Your task to perform on an android device: Search for hotels in Denver Image 0: 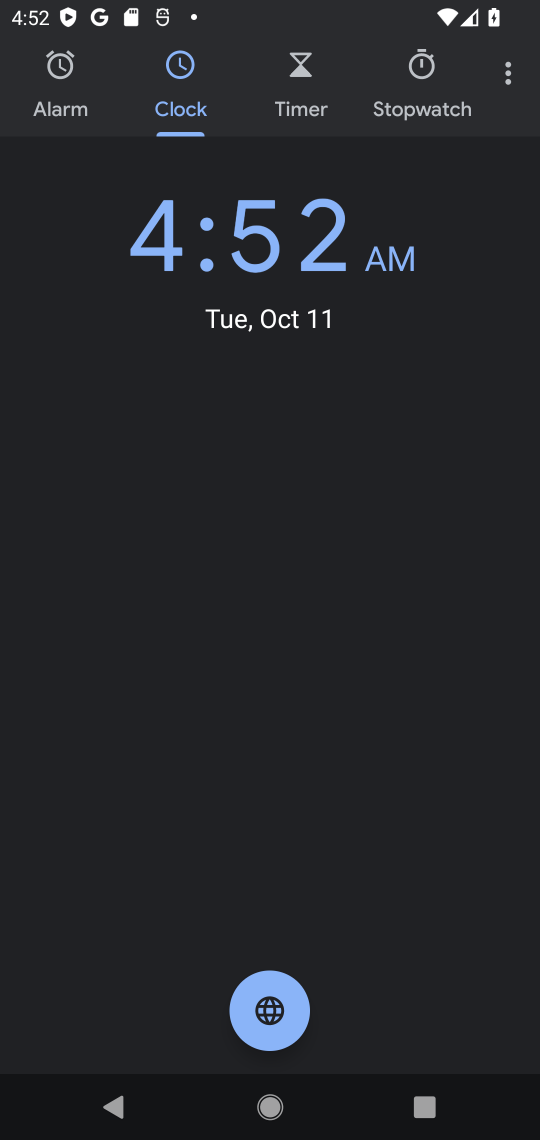
Step 0: press back button
Your task to perform on an android device: Search for hotels in Denver Image 1: 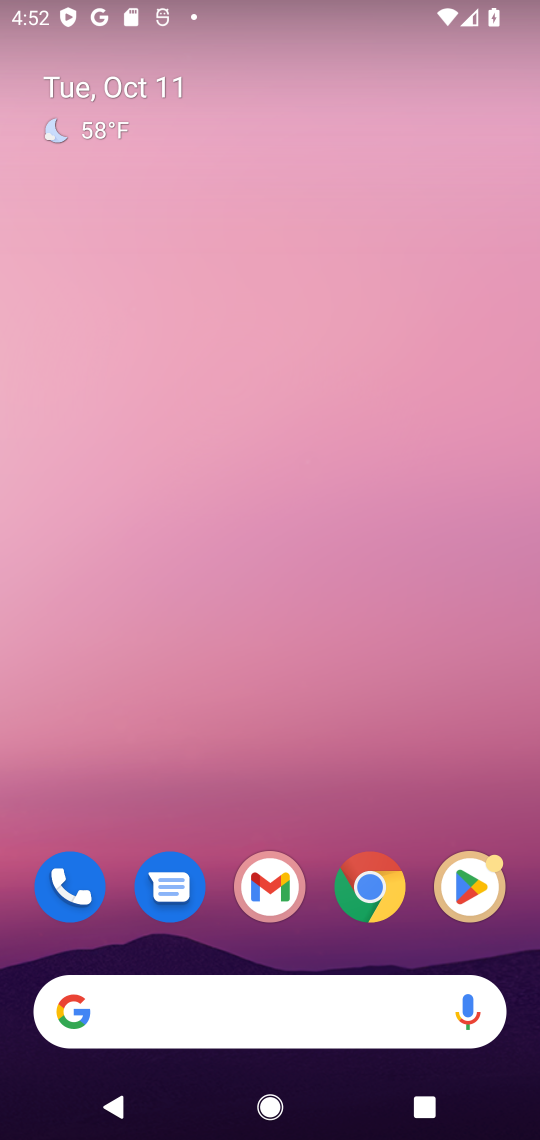
Step 1: click (284, 1006)
Your task to perform on an android device: Search for hotels in Denver Image 2: 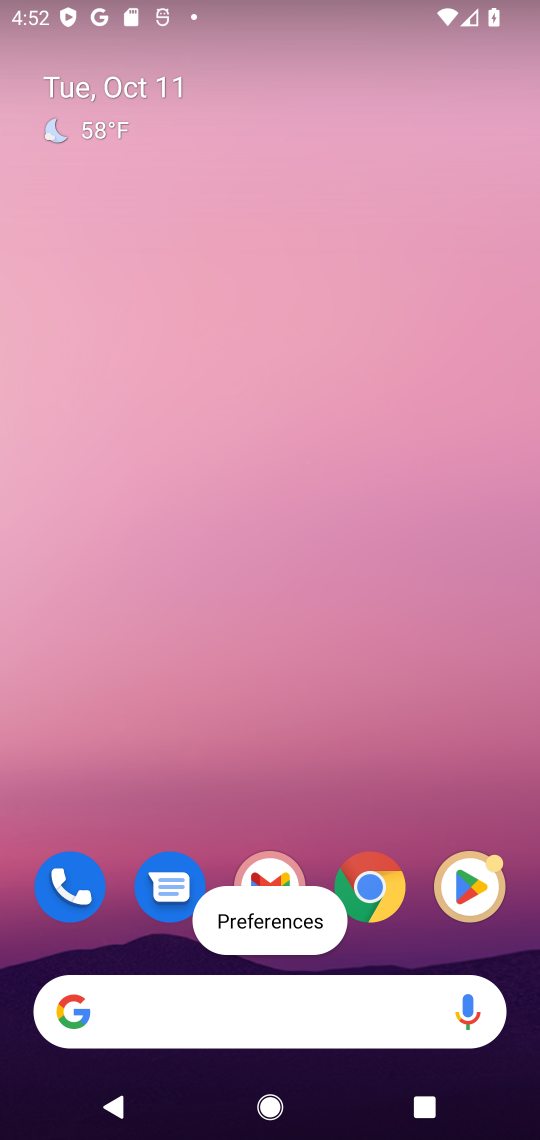
Step 2: type "hotels in Denver"
Your task to perform on an android device: Search for hotels in Denver Image 3: 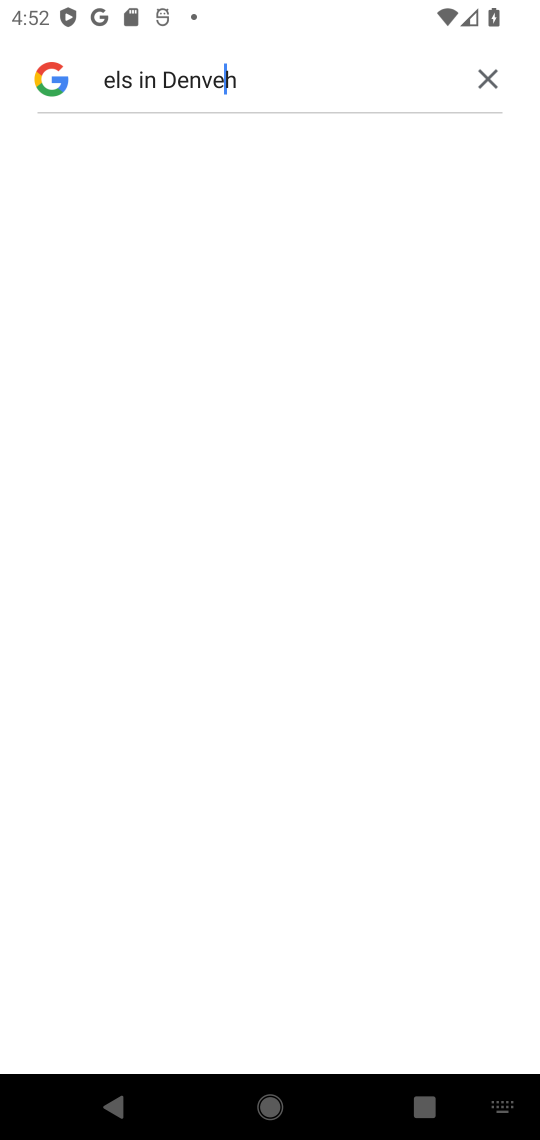
Step 3: type ""
Your task to perform on an android device: Search for hotels in Denver Image 4: 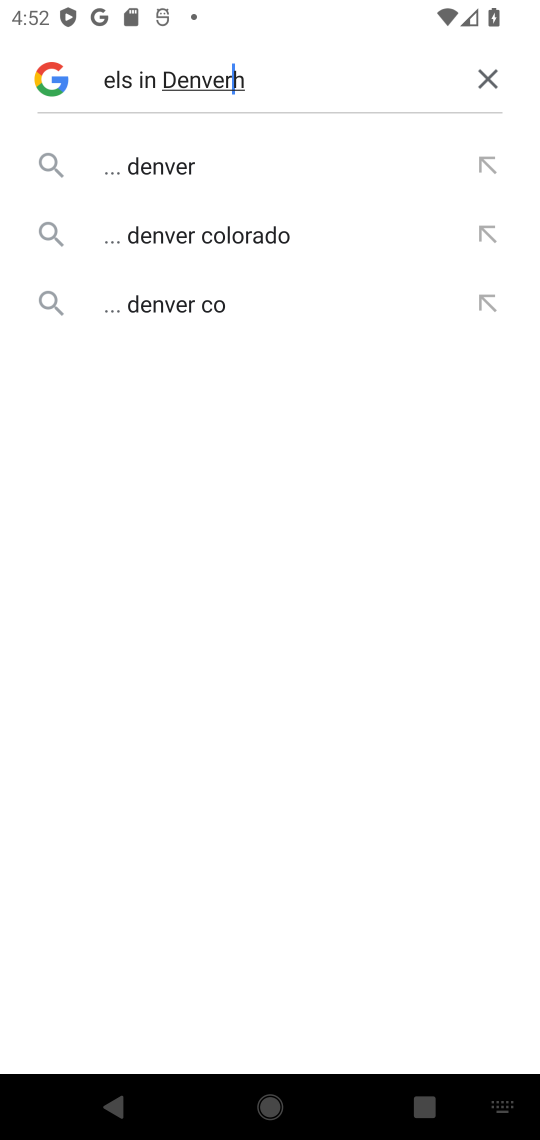
Step 4: click (491, 80)
Your task to perform on an android device: Search for hotels in Denver Image 5: 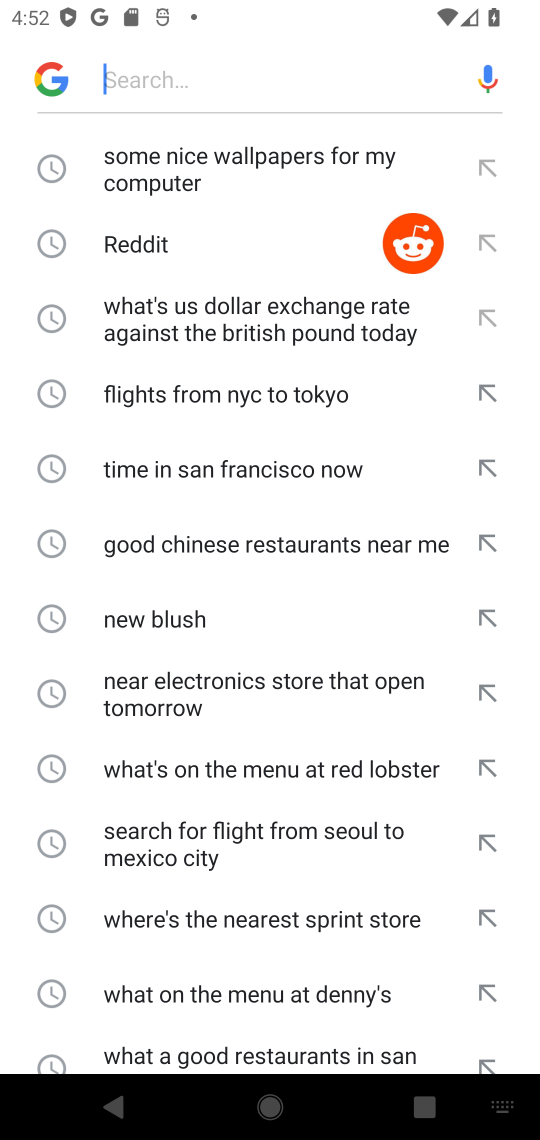
Step 5: type "hotels in Denver"
Your task to perform on an android device: Search for hotels in Denver Image 6: 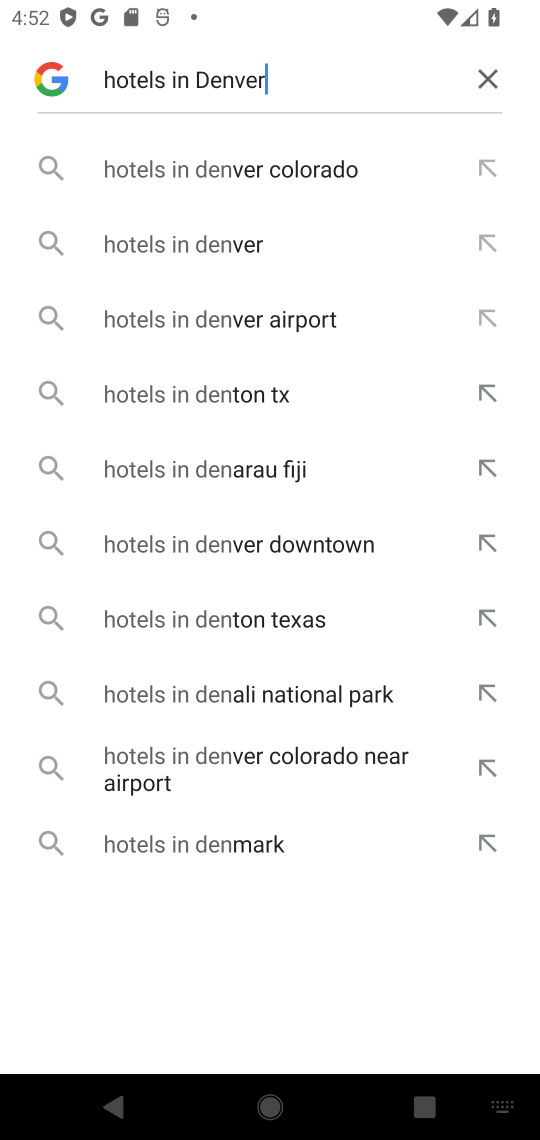
Step 6: type ""
Your task to perform on an android device: Search for hotels in Denver Image 7: 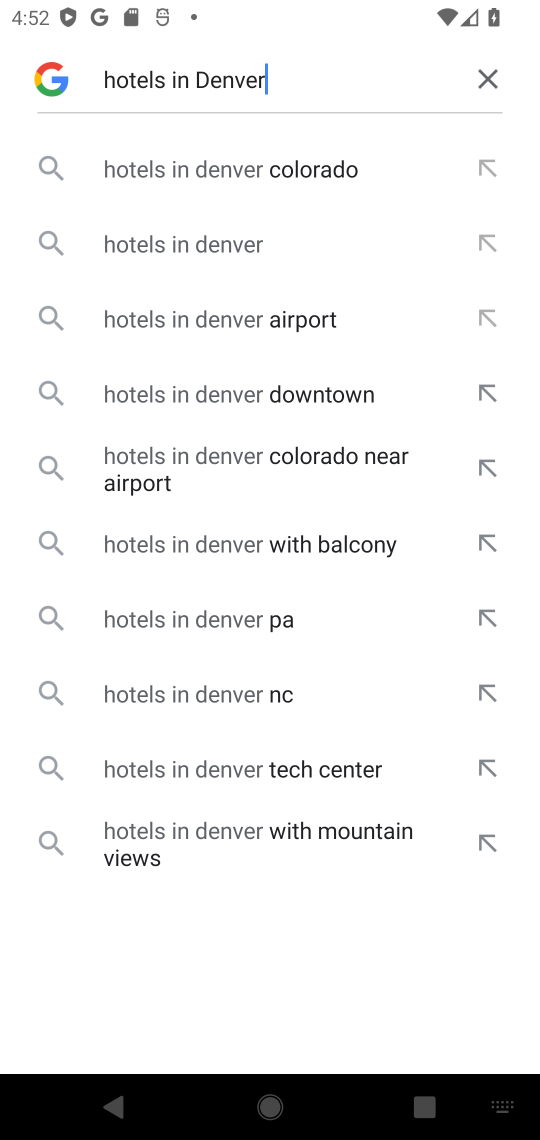
Step 7: type ""
Your task to perform on an android device: Search for hotels in Denver Image 8: 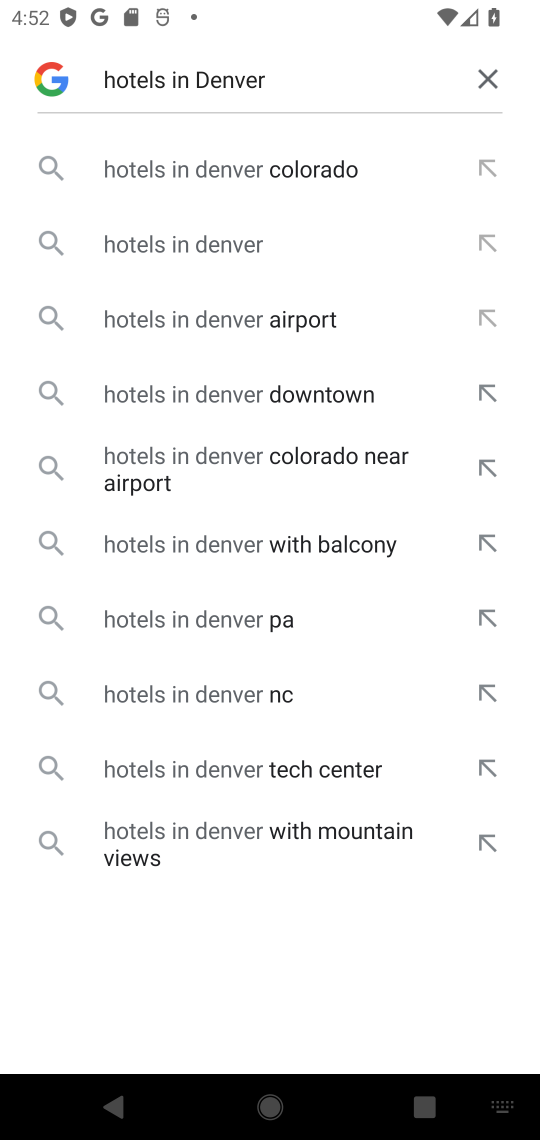
Step 8: press enter
Your task to perform on an android device: Search for hotels in Denver Image 9: 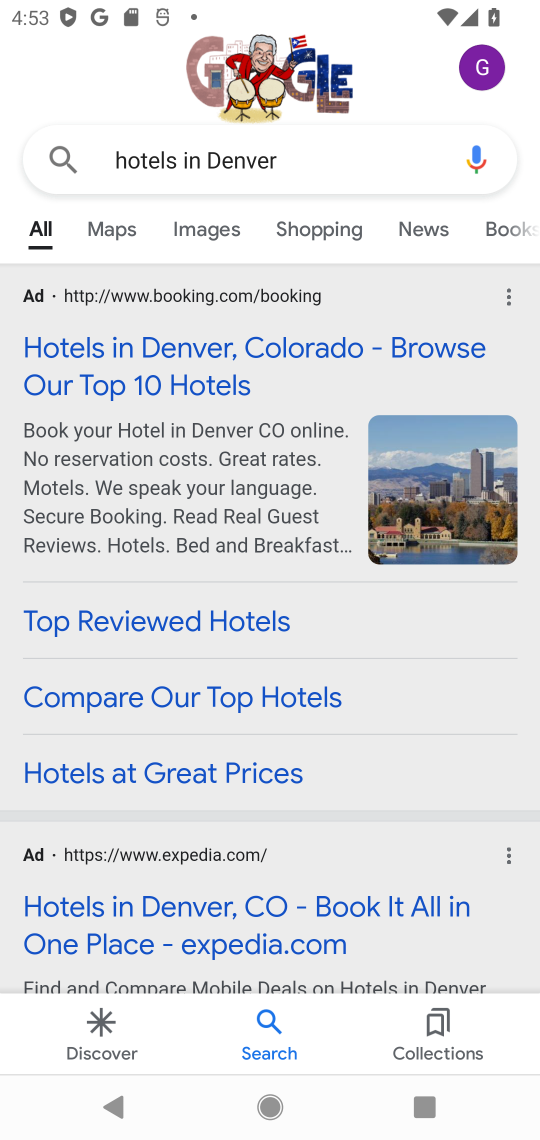
Step 9: drag from (407, 696) to (326, 364)
Your task to perform on an android device: Search for hotels in Denver Image 10: 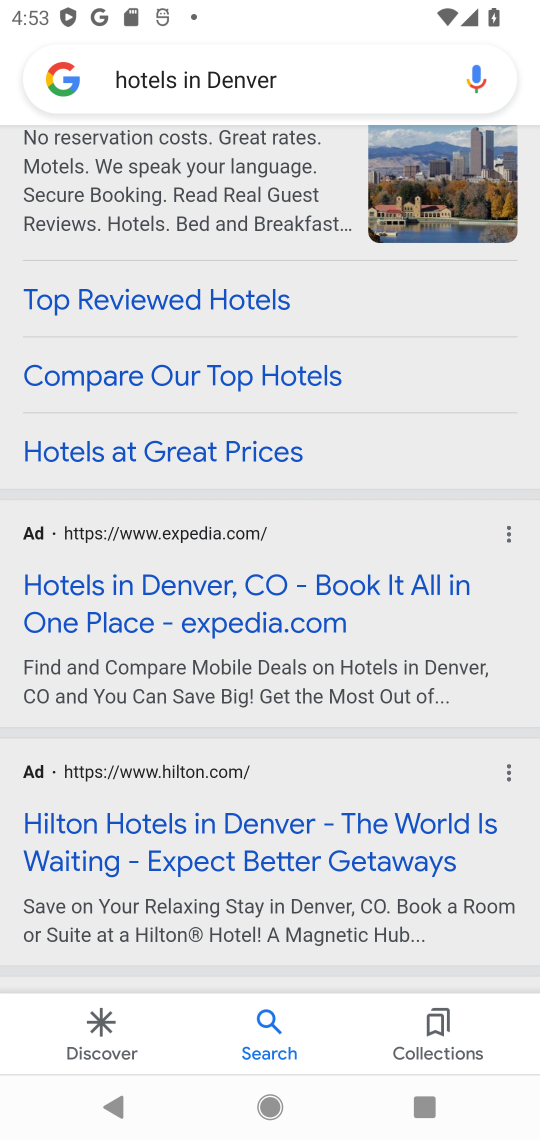
Step 10: drag from (289, 760) to (344, 238)
Your task to perform on an android device: Search for hotels in Denver Image 11: 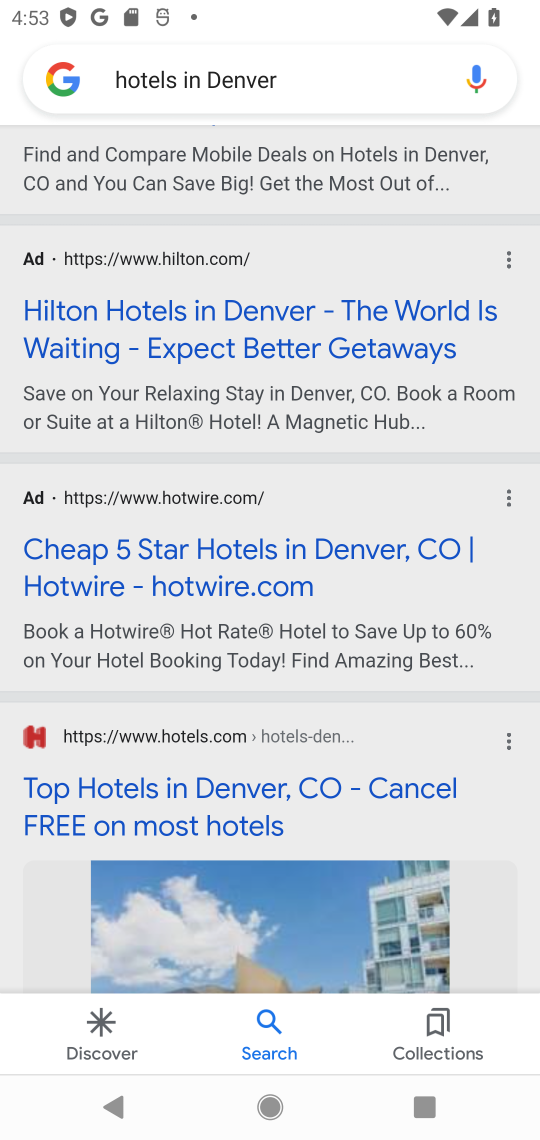
Step 11: click (188, 780)
Your task to perform on an android device: Search for hotels in Denver Image 12: 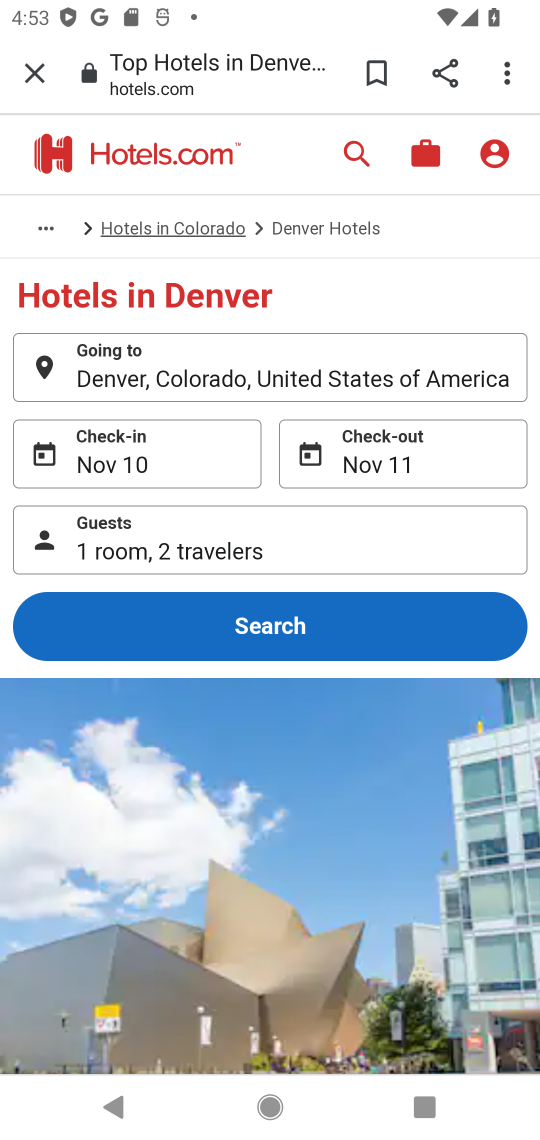
Step 12: drag from (514, 650) to (495, 273)
Your task to perform on an android device: Search for hotels in Denver Image 13: 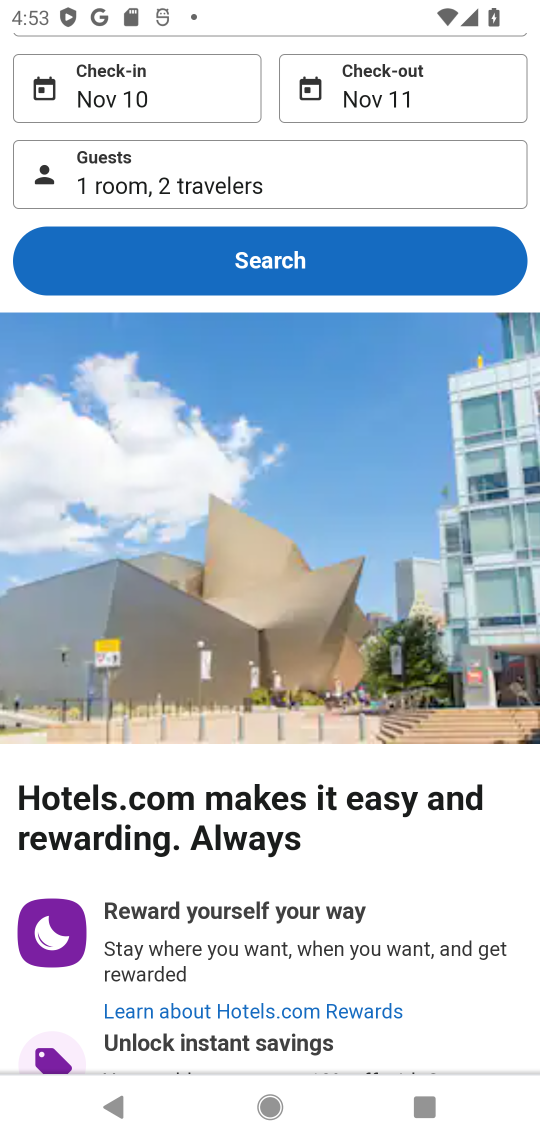
Step 13: drag from (454, 871) to (512, 399)
Your task to perform on an android device: Search for hotels in Denver Image 14: 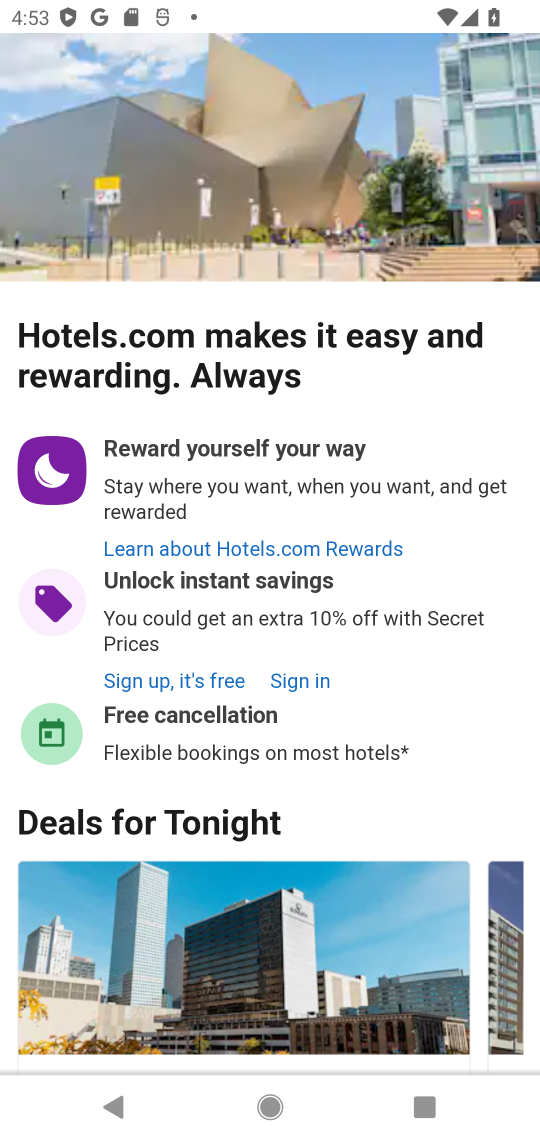
Step 14: drag from (444, 784) to (447, 123)
Your task to perform on an android device: Search for hotels in Denver Image 15: 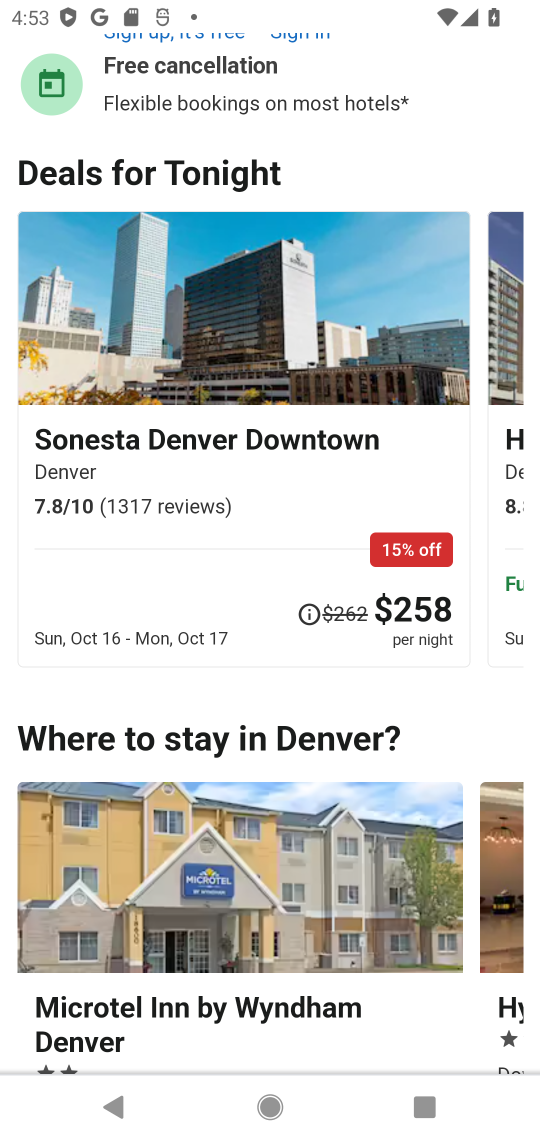
Step 15: drag from (440, 752) to (439, 96)
Your task to perform on an android device: Search for hotels in Denver Image 16: 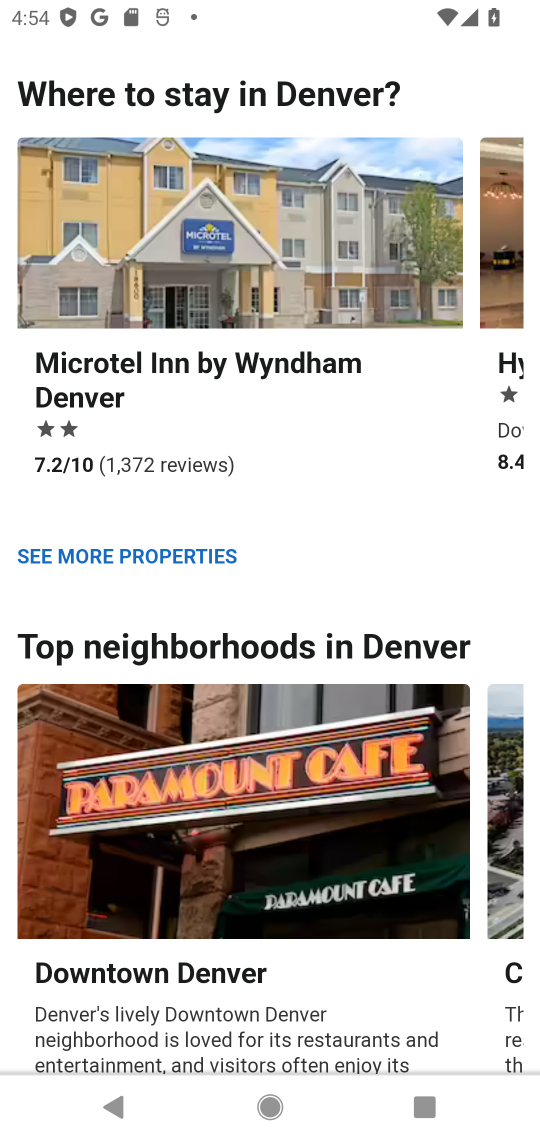
Step 16: drag from (473, 622) to (458, 104)
Your task to perform on an android device: Search for hotels in Denver Image 17: 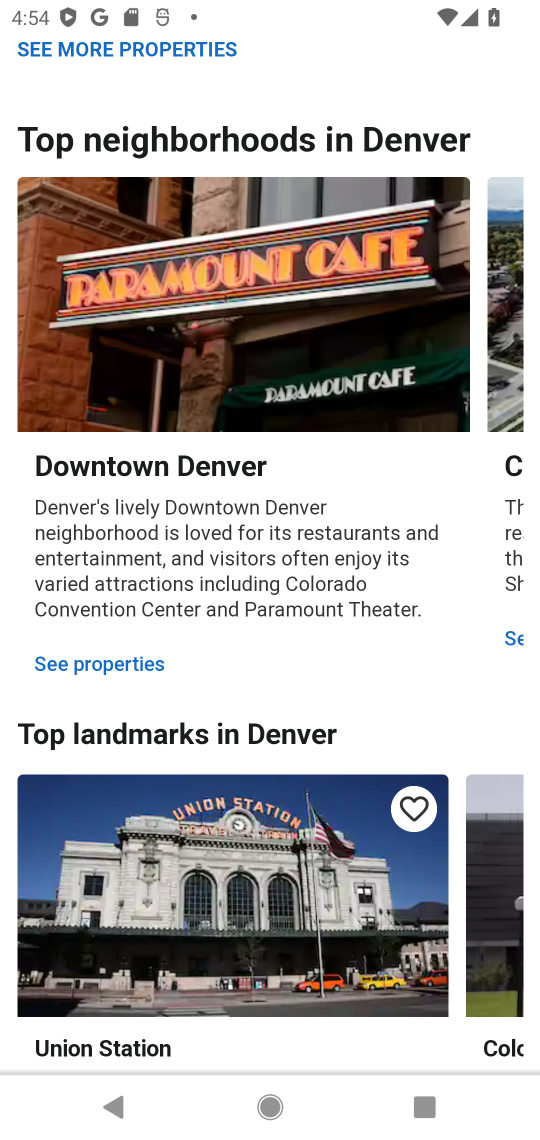
Step 17: drag from (322, 679) to (322, 588)
Your task to perform on an android device: Search for hotels in Denver Image 18: 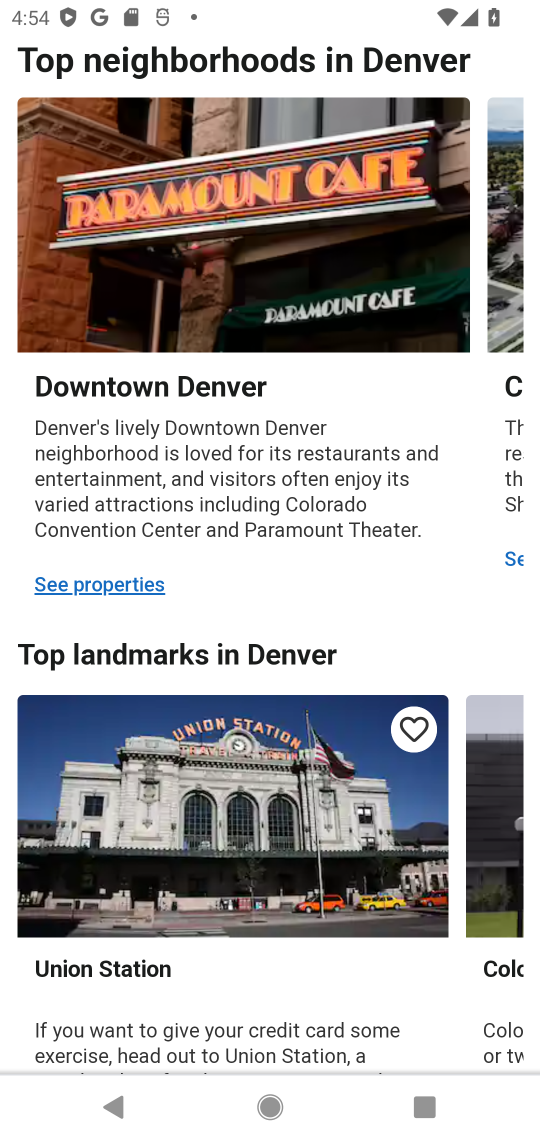
Step 18: click (221, 648)
Your task to perform on an android device: Search for hotels in Denver Image 19: 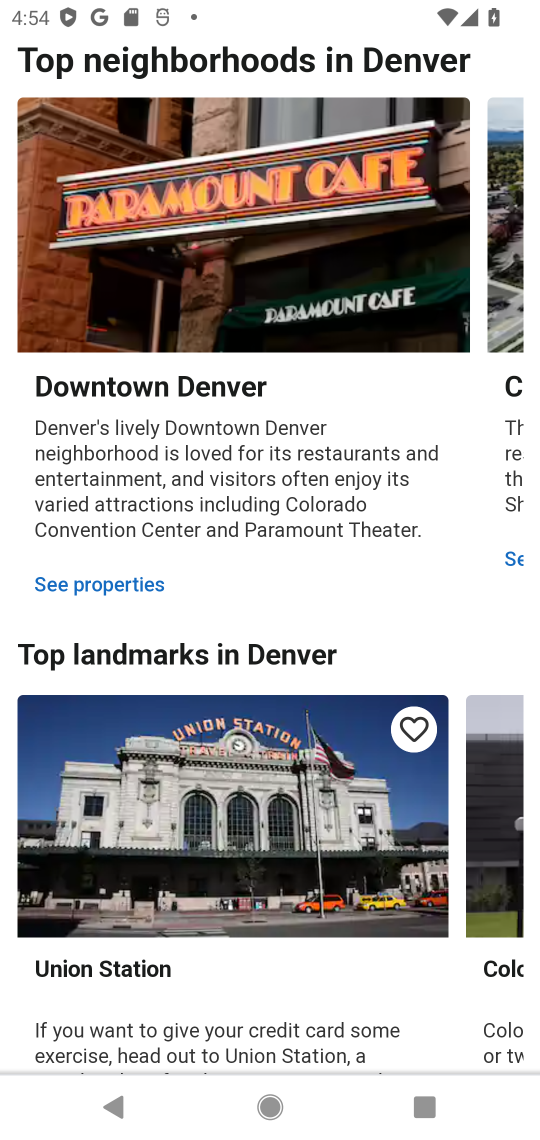
Step 19: drag from (389, 626) to (406, 184)
Your task to perform on an android device: Search for hotels in Denver Image 20: 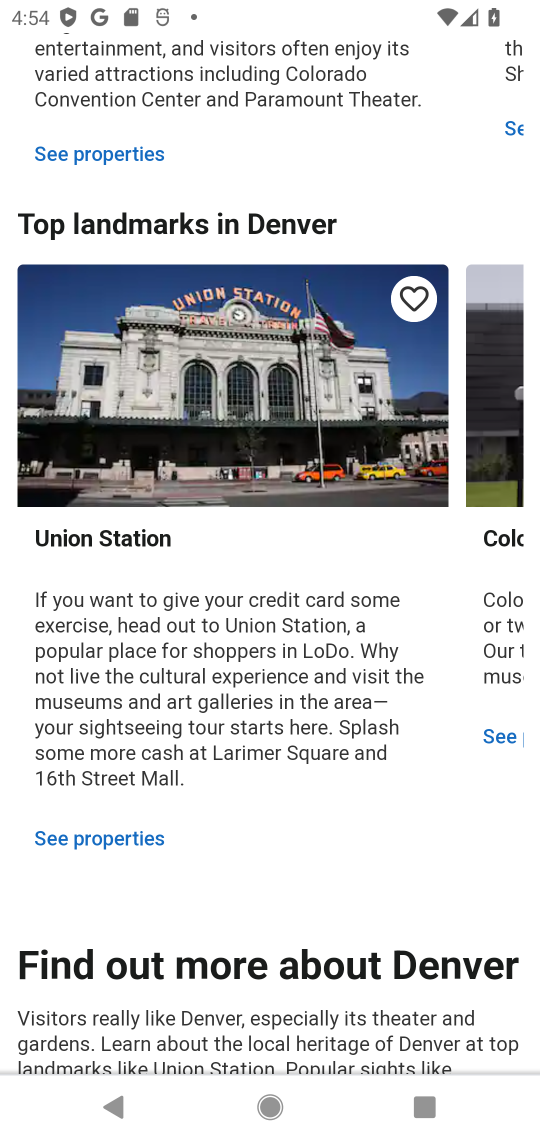
Step 20: drag from (428, 779) to (463, 243)
Your task to perform on an android device: Search for hotels in Denver Image 21: 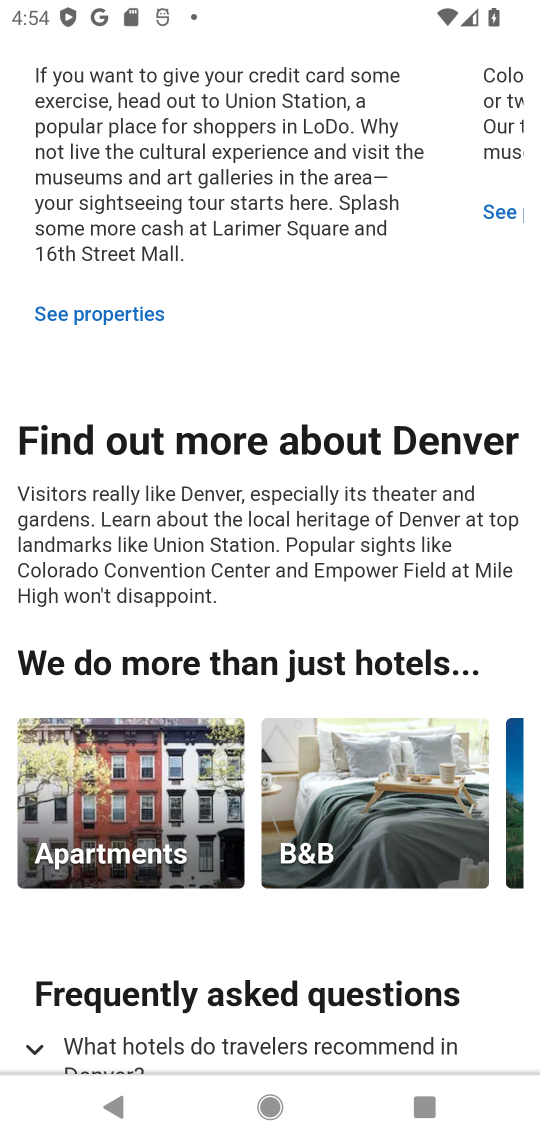
Step 21: click (436, 251)
Your task to perform on an android device: Search for hotels in Denver Image 22: 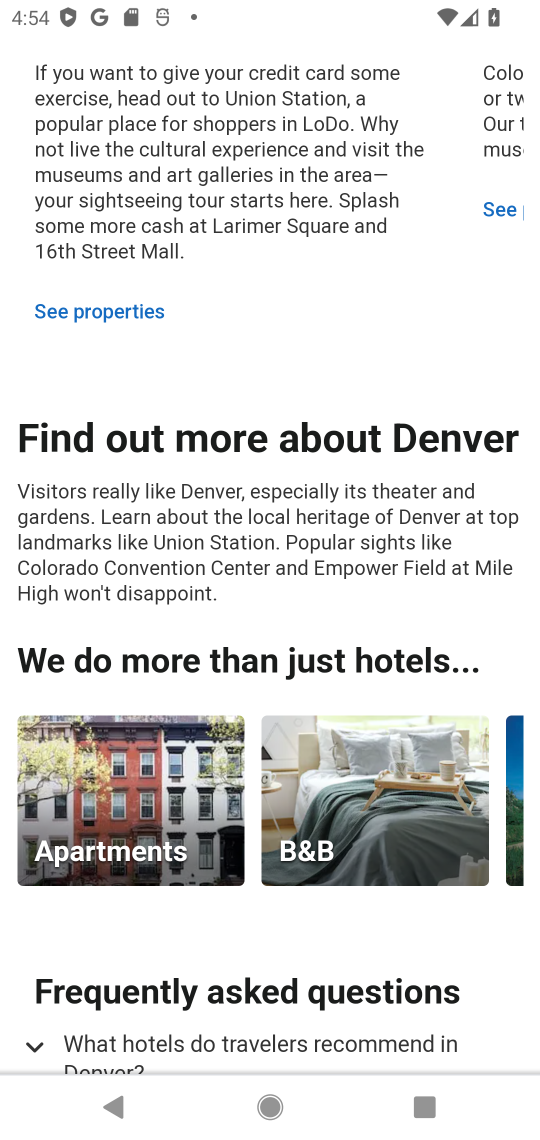
Step 22: click (447, 292)
Your task to perform on an android device: Search for hotels in Denver Image 23: 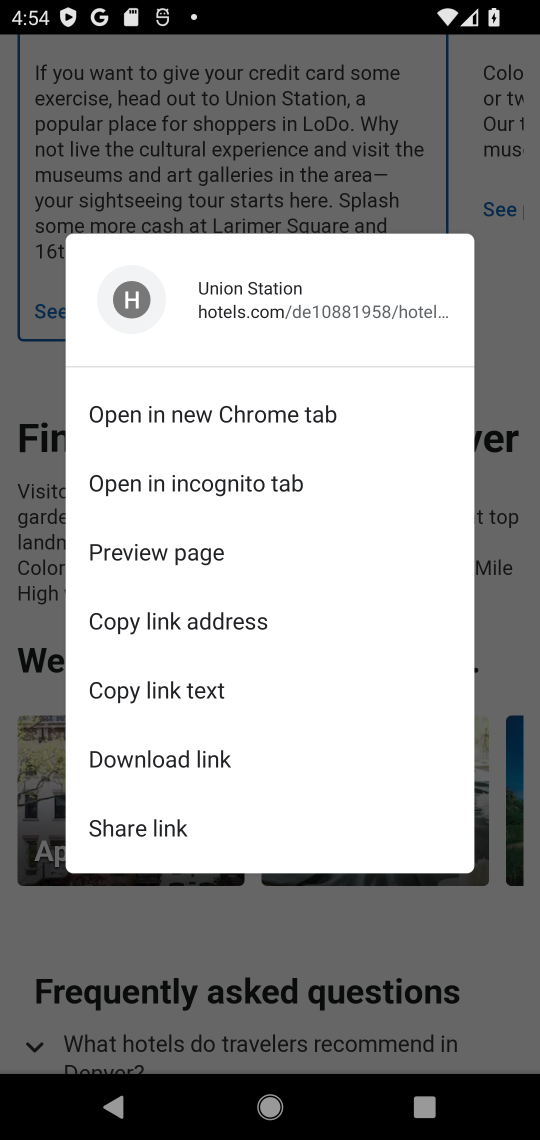
Step 23: click (516, 357)
Your task to perform on an android device: Search for hotels in Denver Image 24: 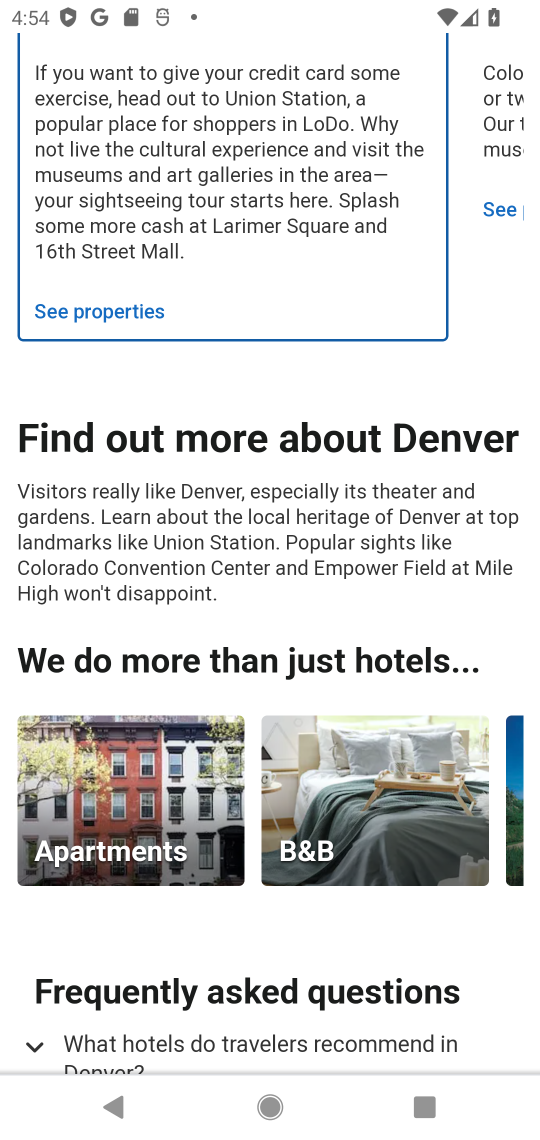
Step 24: click (455, 353)
Your task to perform on an android device: Search for hotels in Denver Image 25: 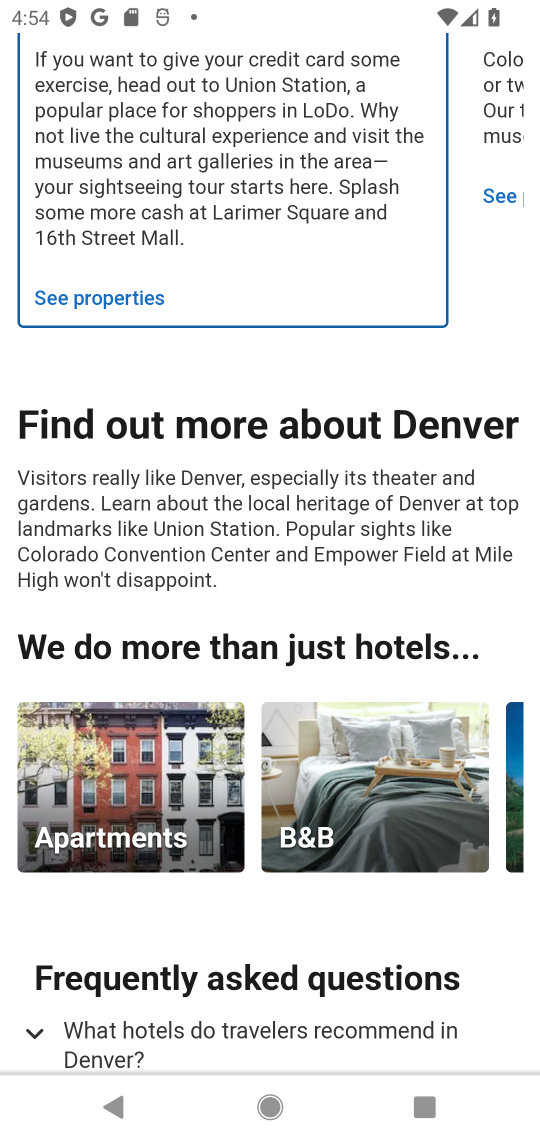
Step 25: drag from (453, 385) to (460, 98)
Your task to perform on an android device: Search for hotels in Denver Image 26: 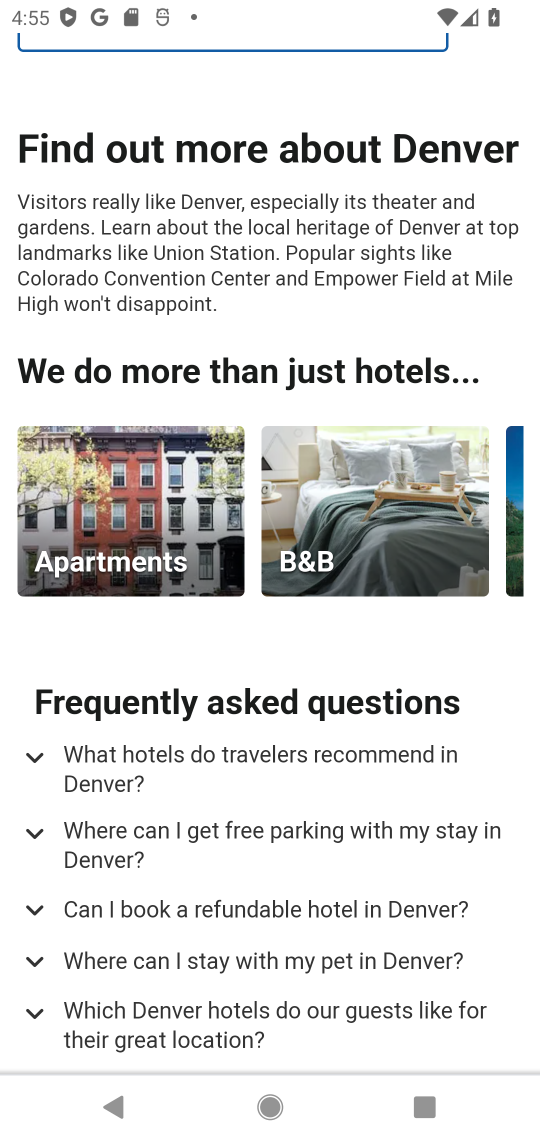
Step 26: click (33, 751)
Your task to perform on an android device: Search for hotels in Denver Image 27: 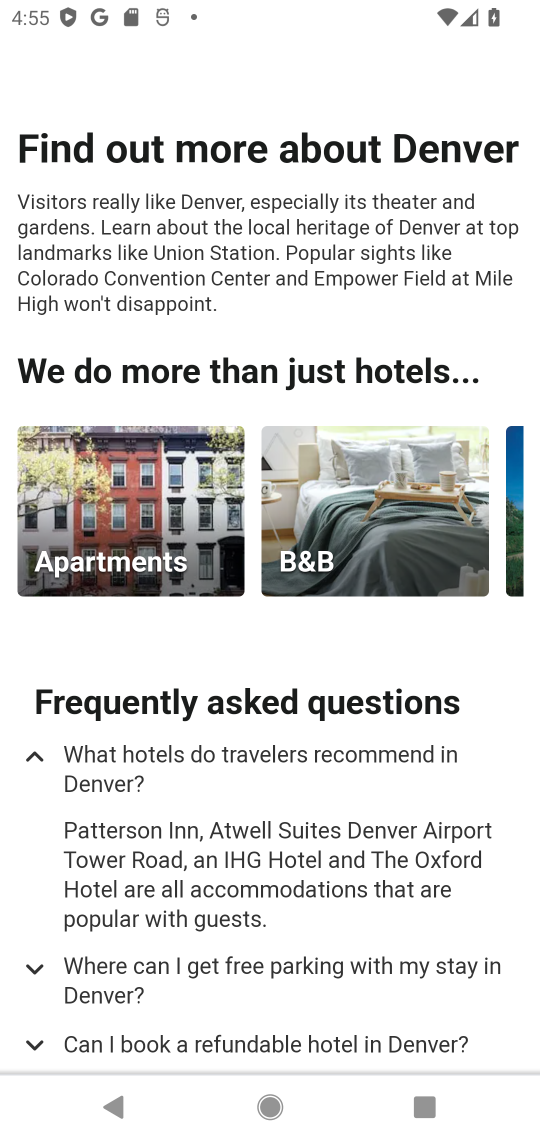
Step 27: click (30, 756)
Your task to perform on an android device: Search for hotels in Denver Image 28: 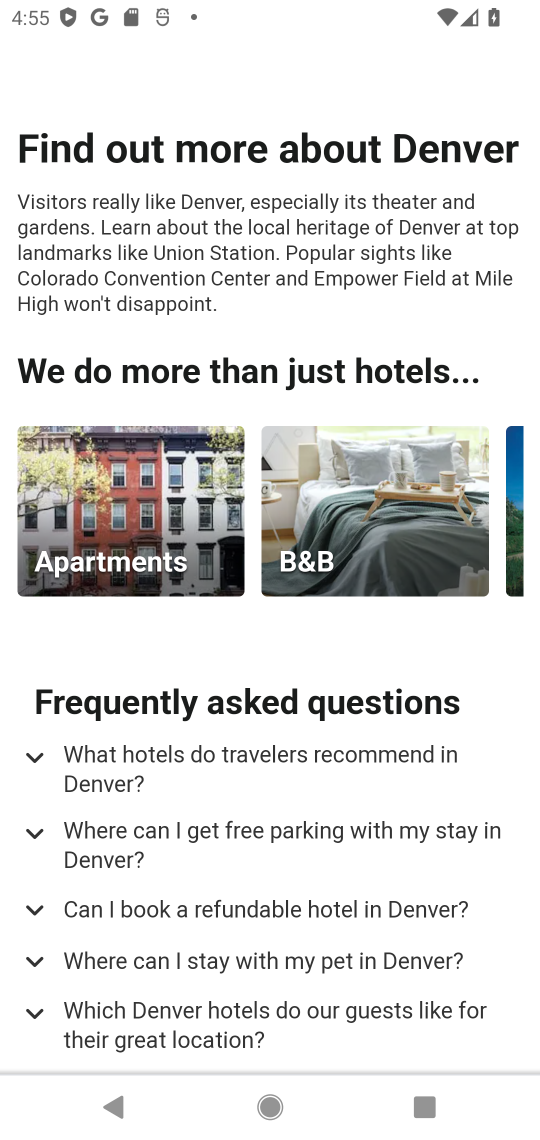
Step 28: click (30, 756)
Your task to perform on an android device: Search for hotels in Denver Image 29: 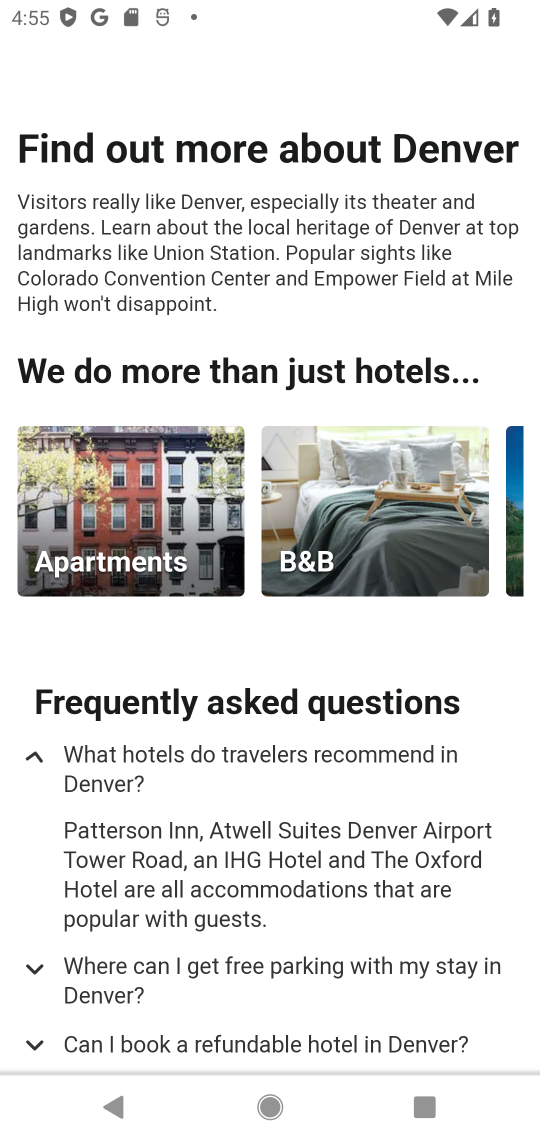
Step 29: click (30, 756)
Your task to perform on an android device: Search for hotels in Denver Image 30: 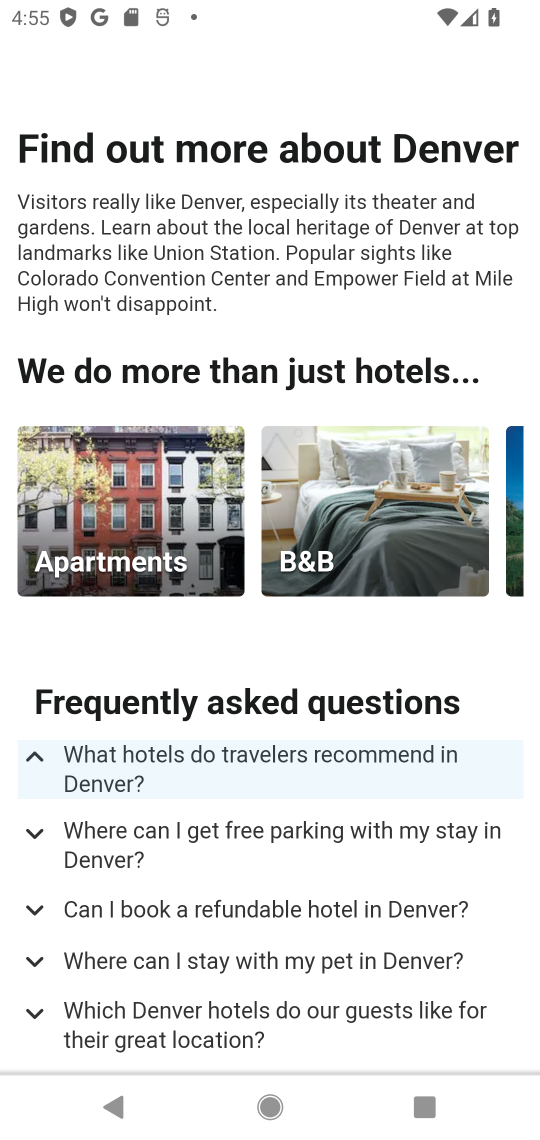
Step 30: click (30, 756)
Your task to perform on an android device: Search for hotels in Denver Image 31: 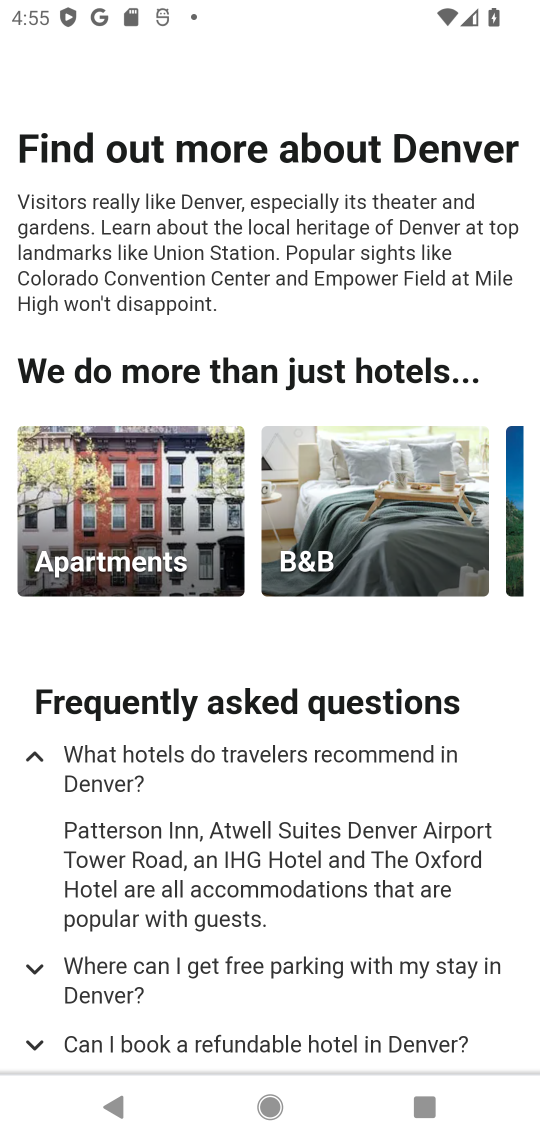
Step 31: click (30, 756)
Your task to perform on an android device: Search for hotels in Denver Image 32: 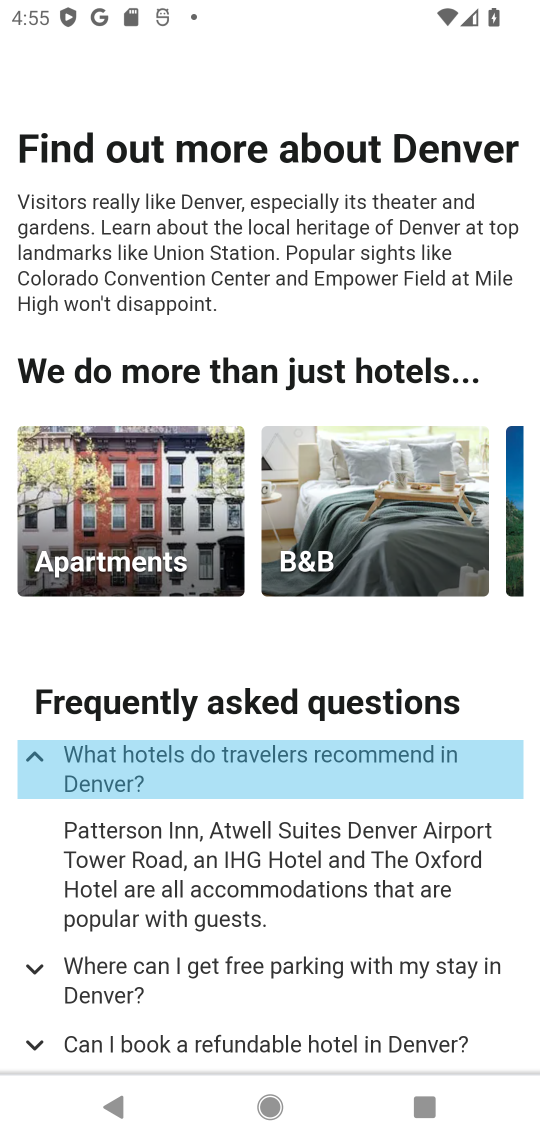
Step 32: click (30, 756)
Your task to perform on an android device: Search for hotels in Denver Image 33: 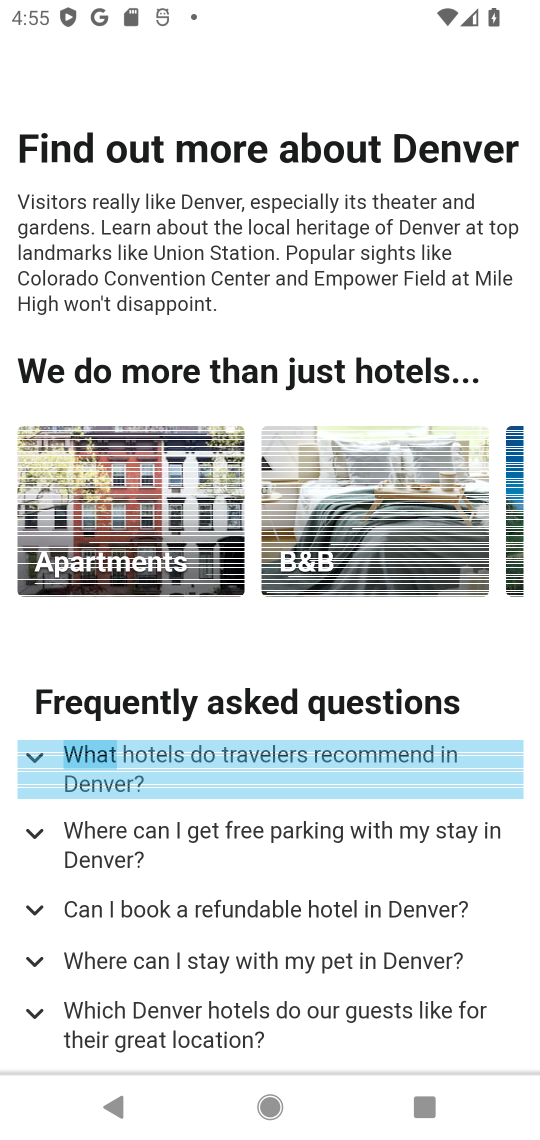
Step 33: click (30, 756)
Your task to perform on an android device: Search for hotels in Denver Image 34: 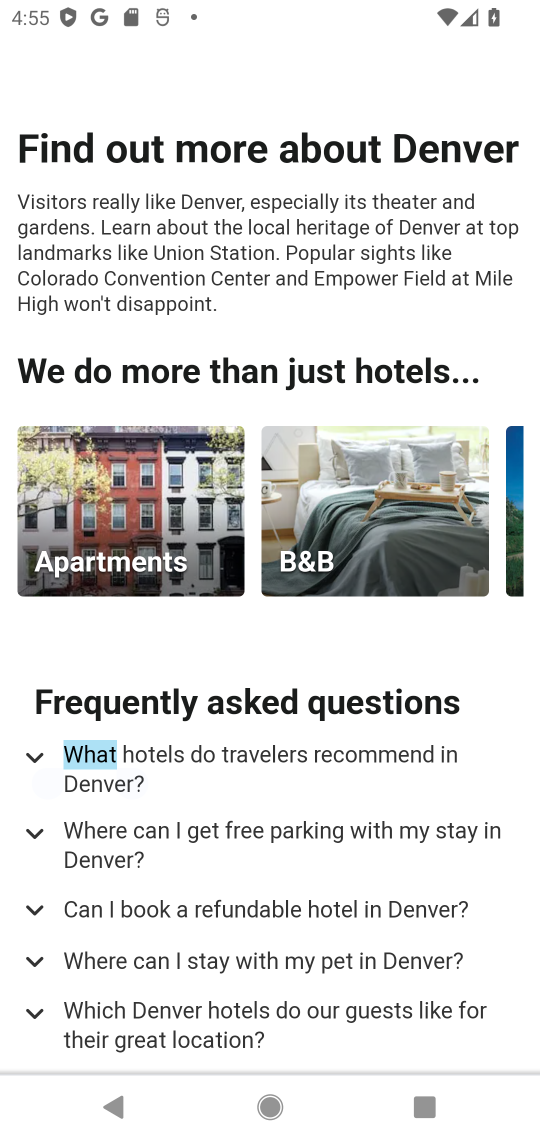
Step 34: click (28, 755)
Your task to perform on an android device: Search for hotels in Denver Image 35: 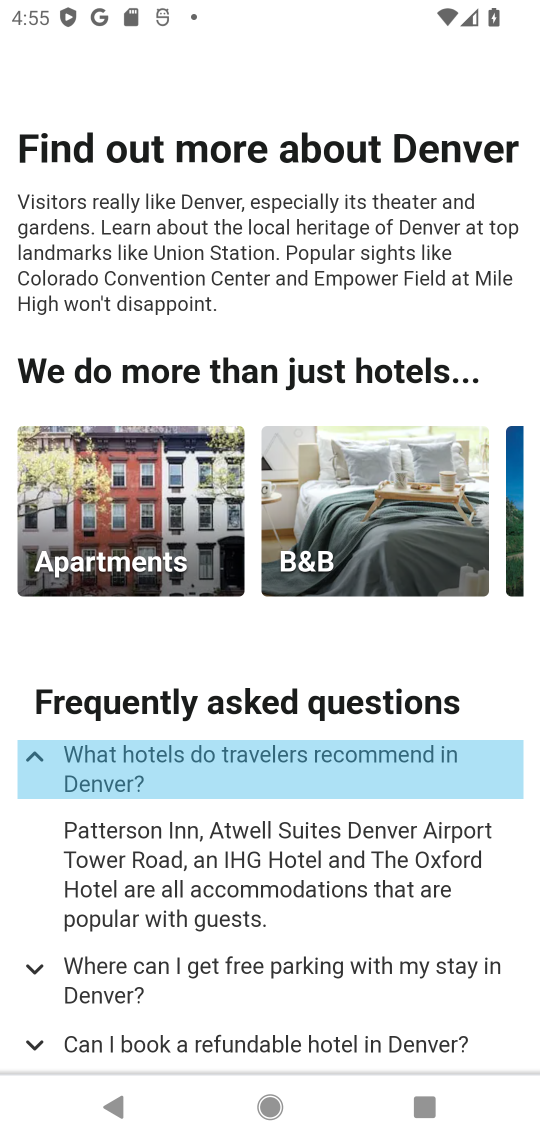
Step 35: click (28, 755)
Your task to perform on an android device: Search for hotels in Denver Image 36: 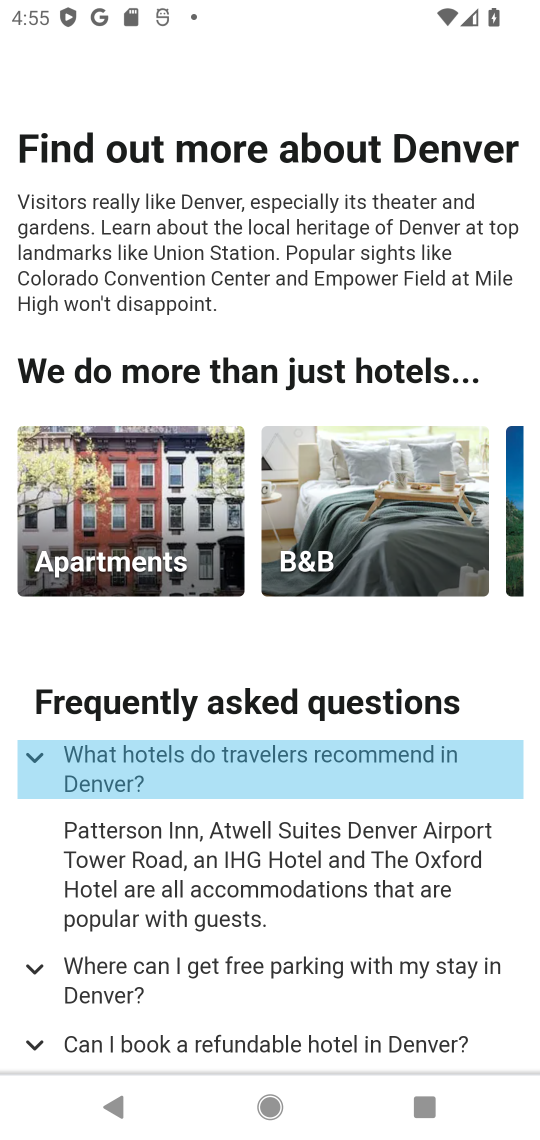
Step 36: click (28, 755)
Your task to perform on an android device: Search for hotels in Denver Image 37: 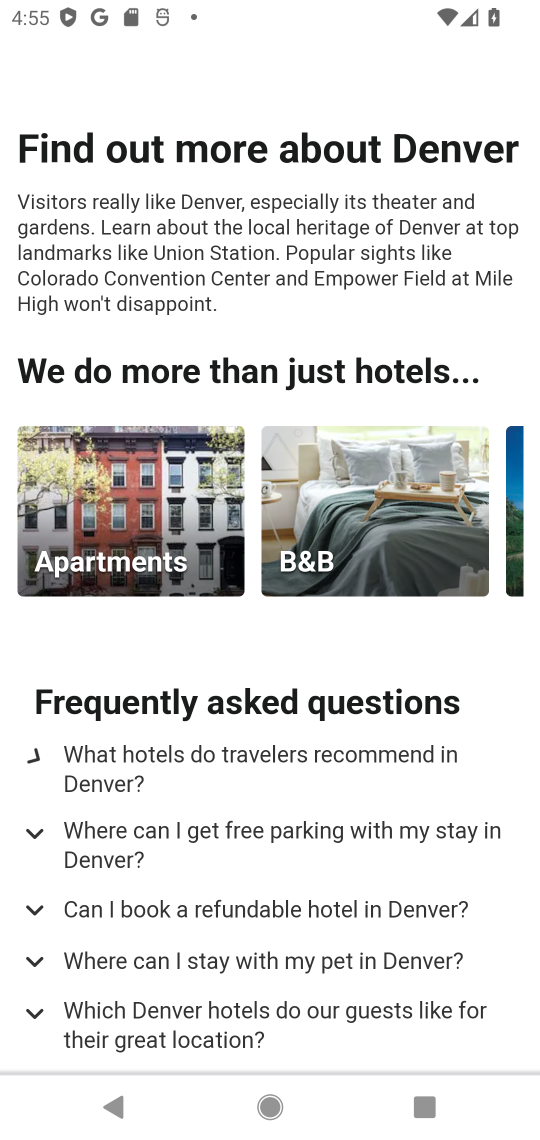
Step 37: click (28, 755)
Your task to perform on an android device: Search for hotels in Denver Image 38: 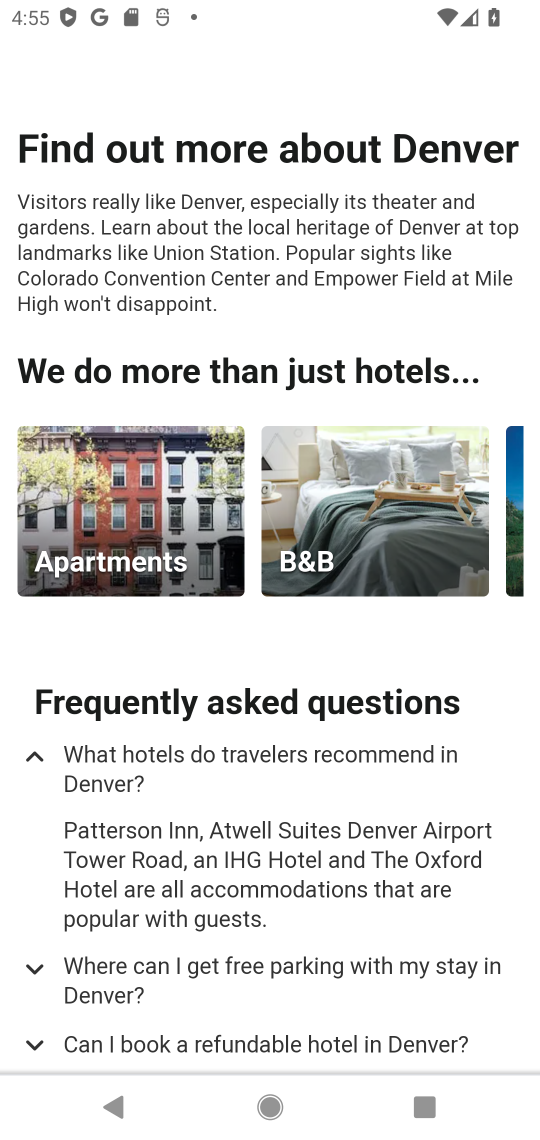
Step 38: click (28, 755)
Your task to perform on an android device: Search for hotels in Denver Image 39: 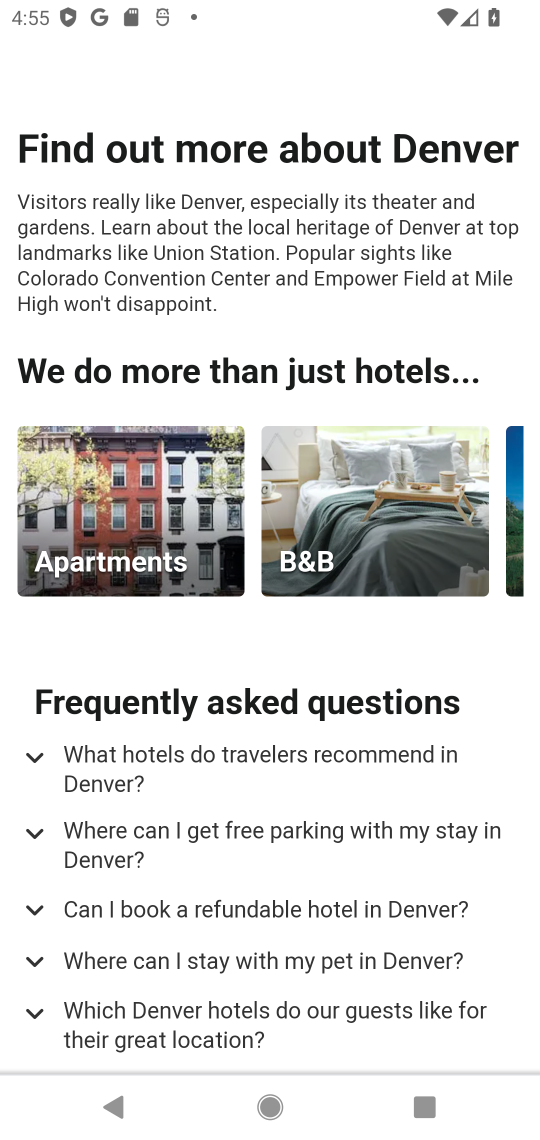
Step 39: click (34, 756)
Your task to perform on an android device: Search for hotels in Denver Image 40: 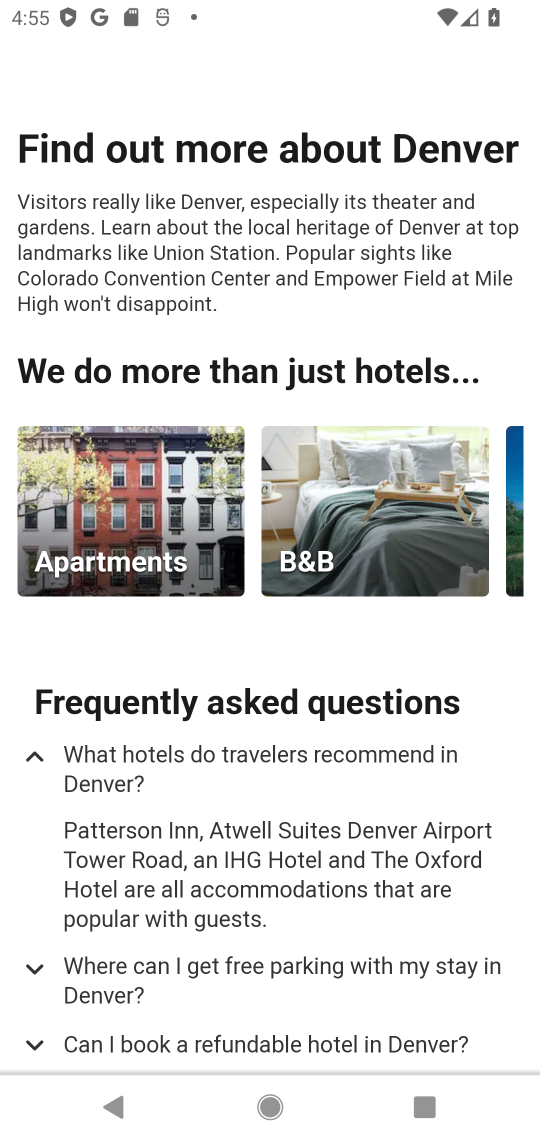
Step 40: click (34, 756)
Your task to perform on an android device: Search for hotels in Denver Image 41: 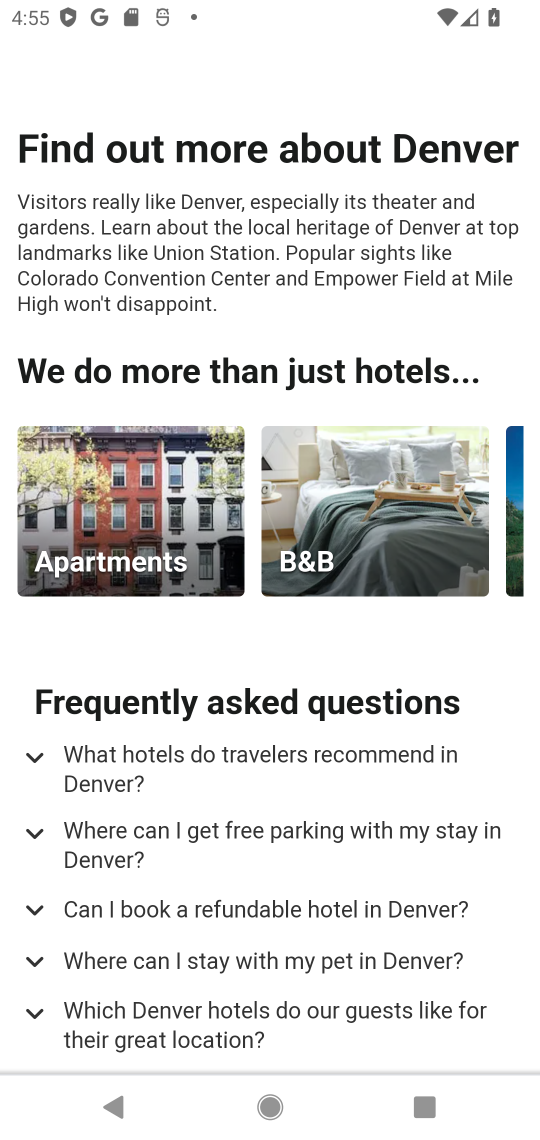
Step 41: click (34, 756)
Your task to perform on an android device: Search for hotels in Denver Image 42: 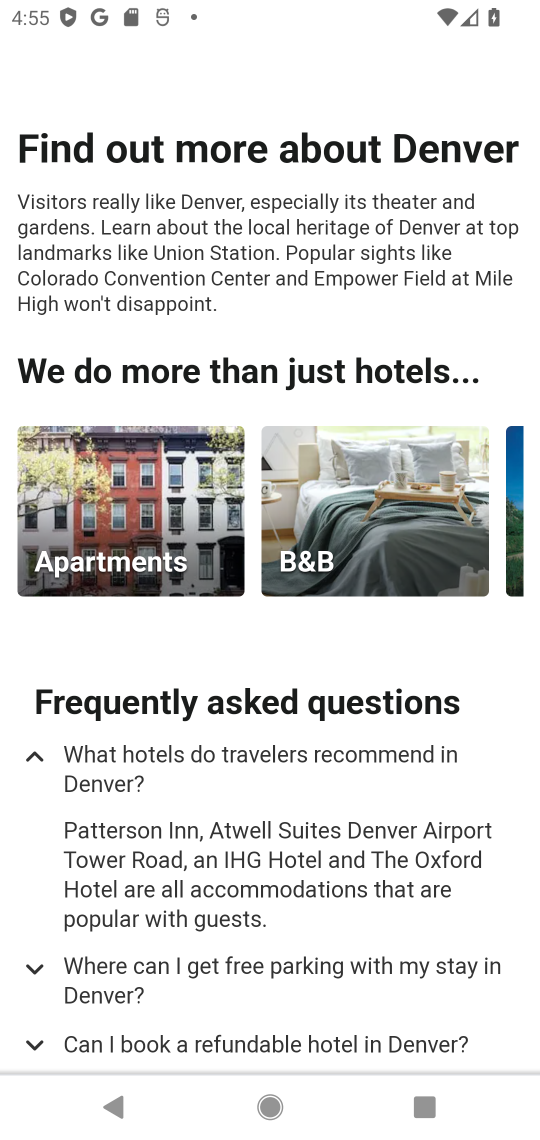
Step 42: click (34, 756)
Your task to perform on an android device: Search for hotels in Denver Image 43: 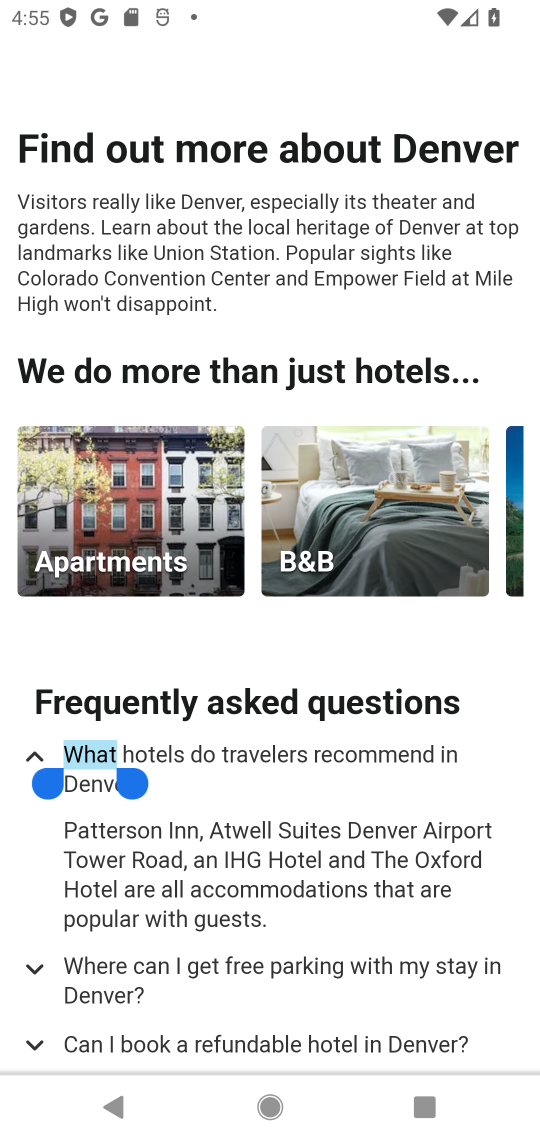
Step 43: click (34, 756)
Your task to perform on an android device: Search for hotels in Denver Image 44: 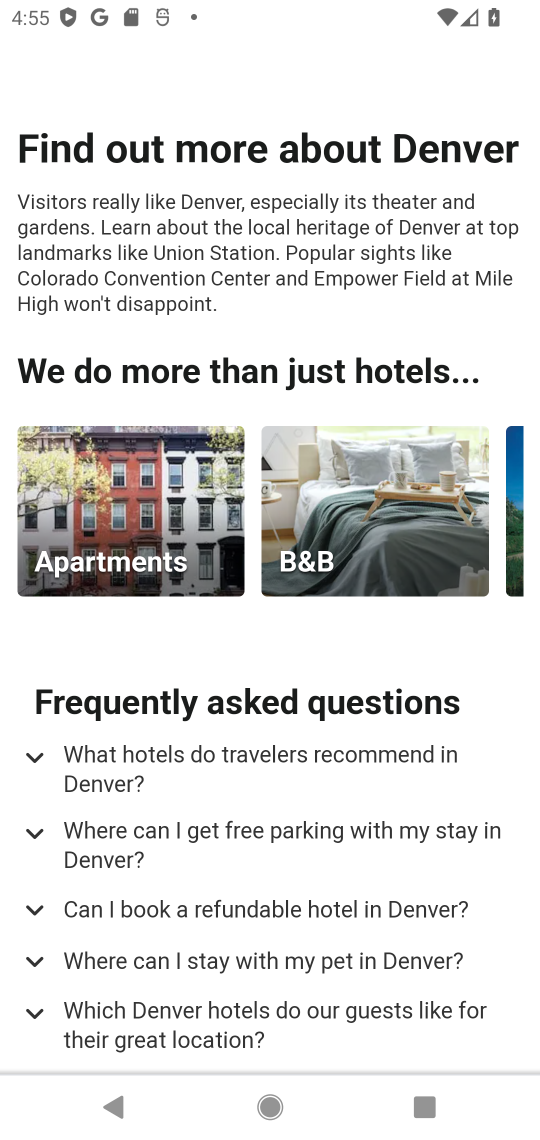
Step 44: click (34, 756)
Your task to perform on an android device: Search for hotels in Denver Image 45: 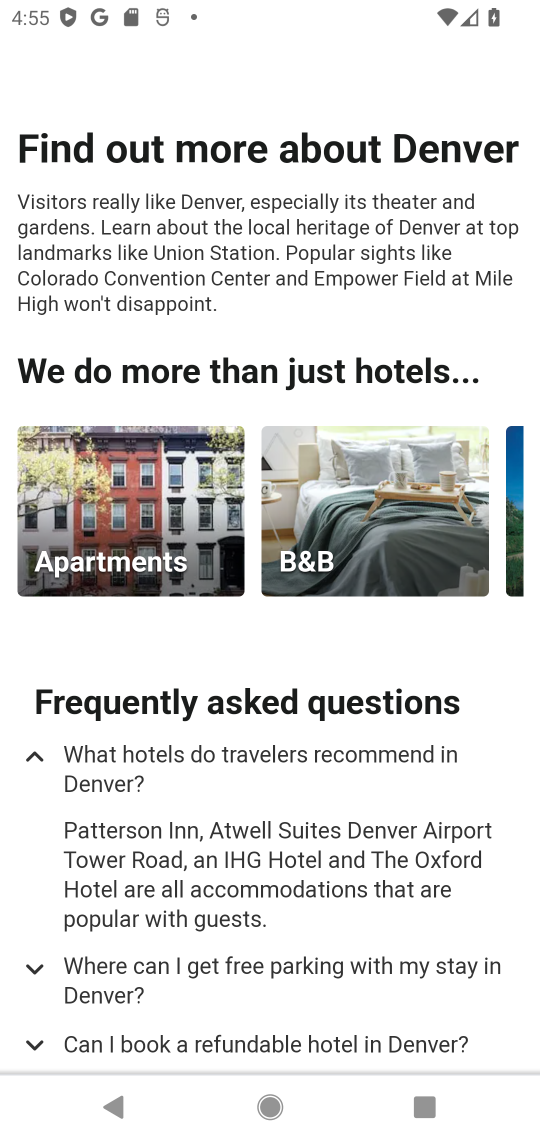
Step 45: click (34, 756)
Your task to perform on an android device: Search for hotels in Denver Image 46: 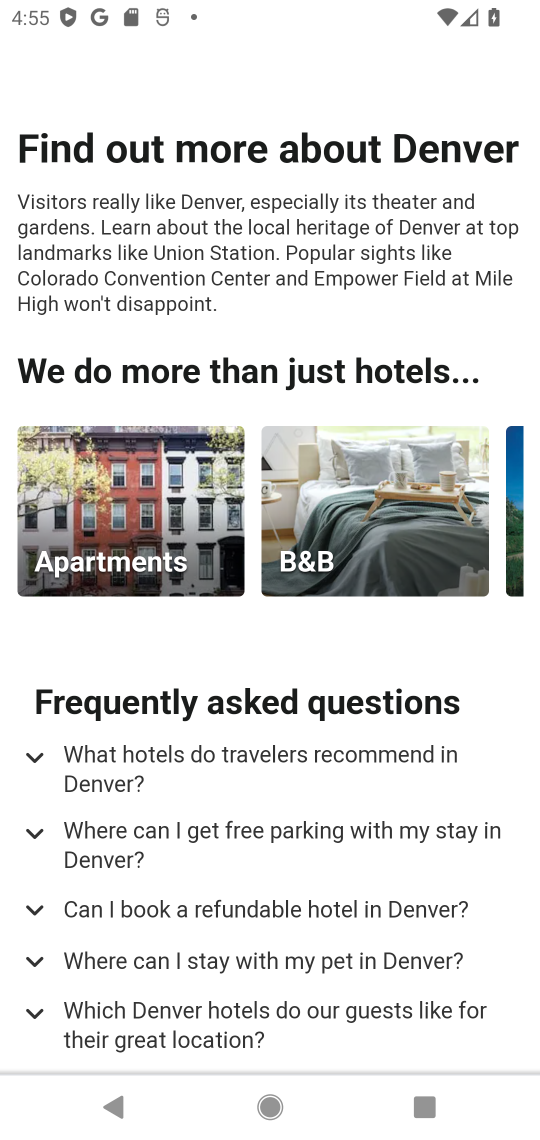
Step 46: click (34, 755)
Your task to perform on an android device: Search for hotels in Denver Image 47: 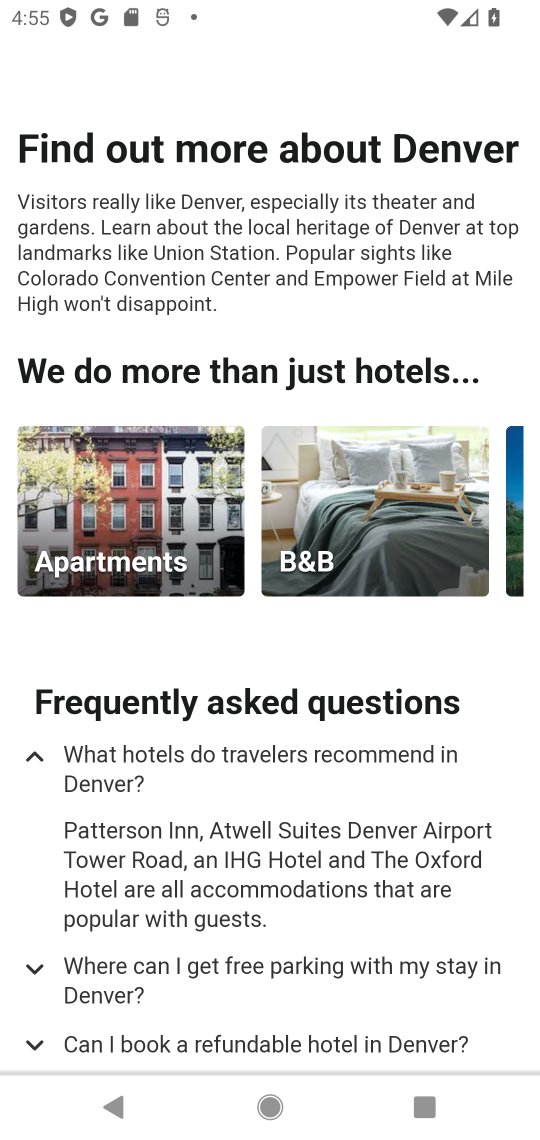
Step 47: click (7, 740)
Your task to perform on an android device: Search for hotels in Denver Image 48: 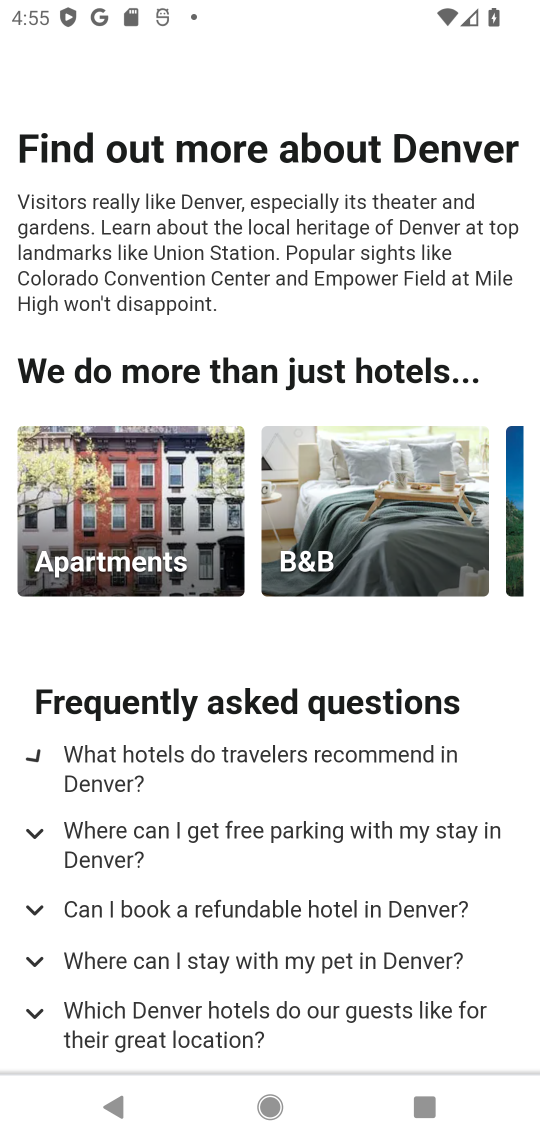
Step 48: click (31, 752)
Your task to perform on an android device: Search for hotels in Denver Image 49: 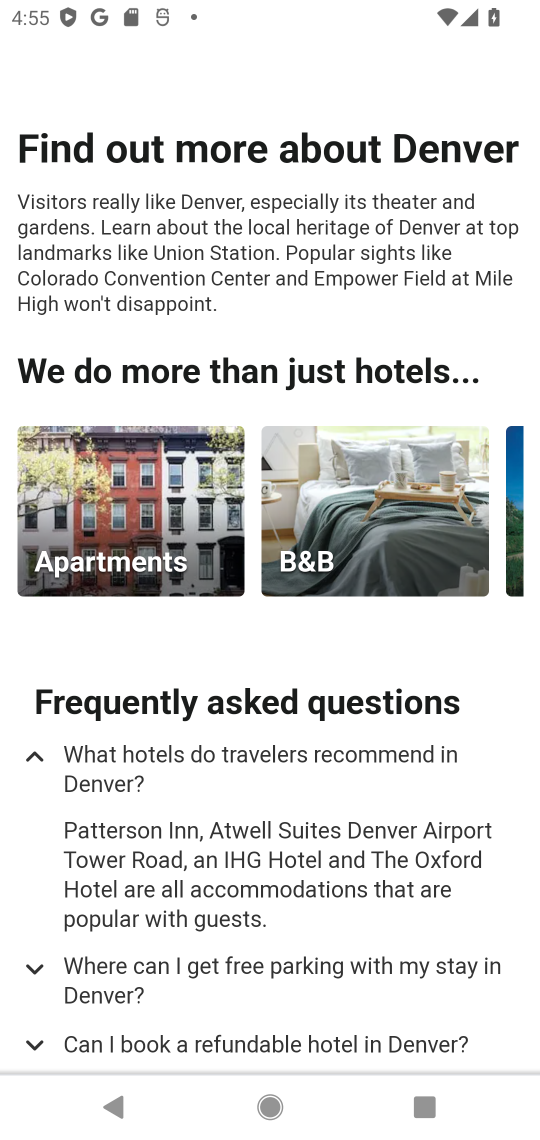
Step 49: click (31, 752)
Your task to perform on an android device: Search for hotels in Denver Image 50: 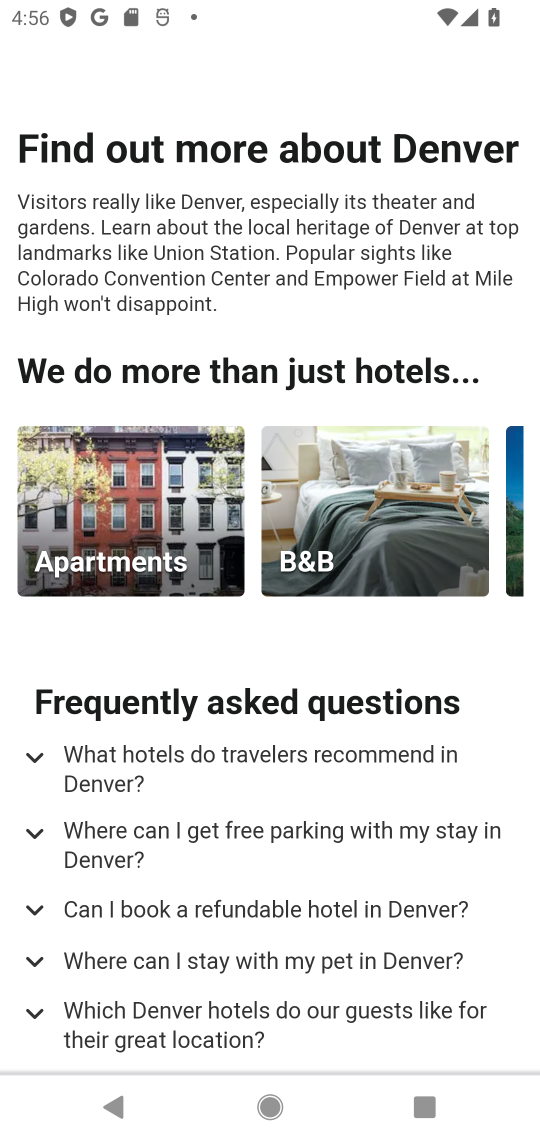
Step 50: click (31, 752)
Your task to perform on an android device: Search for hotels in Denver Image 51: 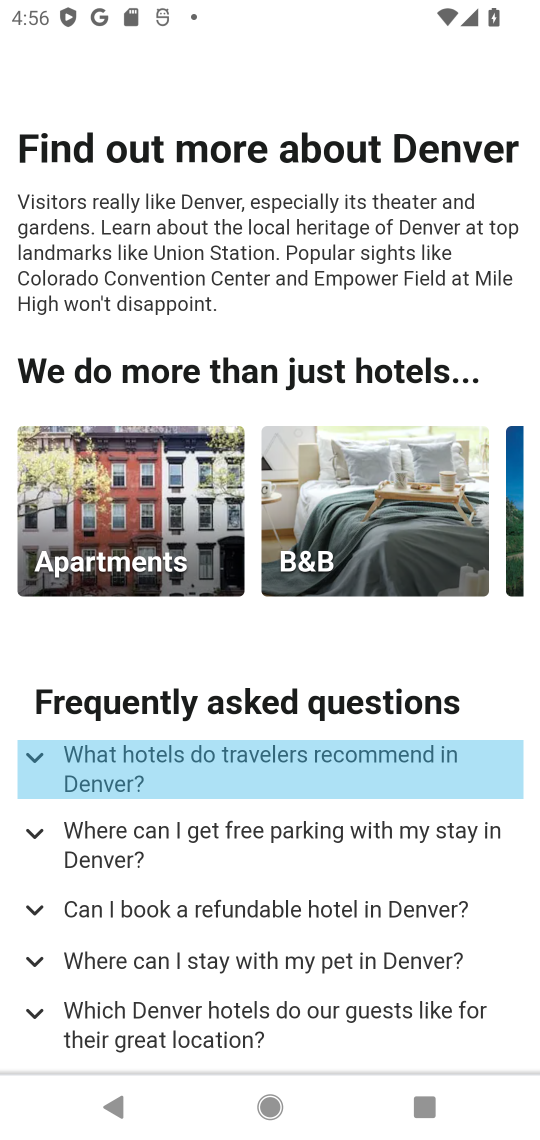
Step 51: click (31, 752)
Your task to perform on an android device: Search for hotels in Denver Image 52: 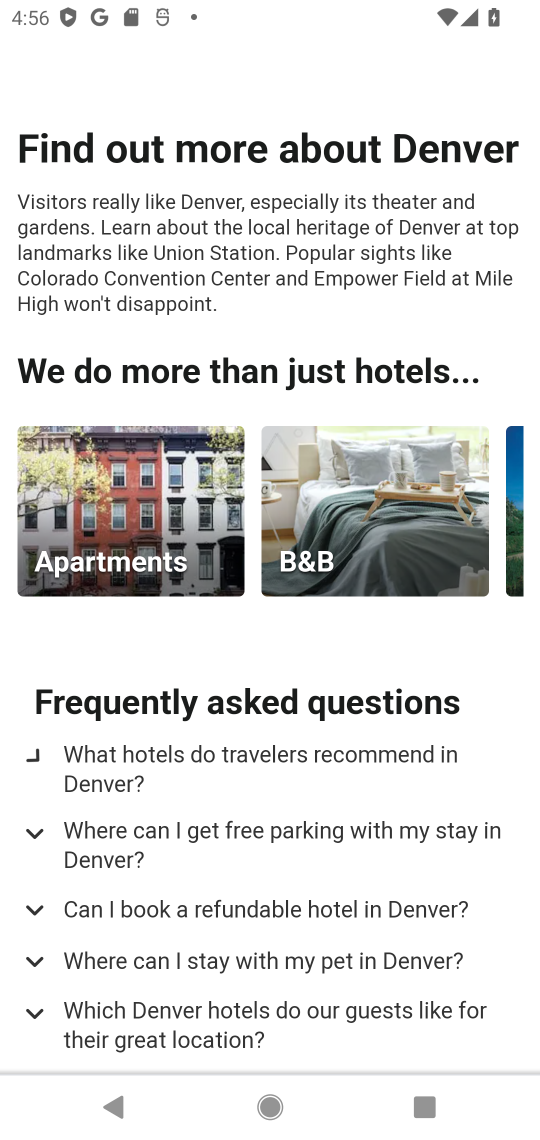
Step 52: click (31, 752)
Your task to perform on an android device: Search for hotels in Denver Image 53: 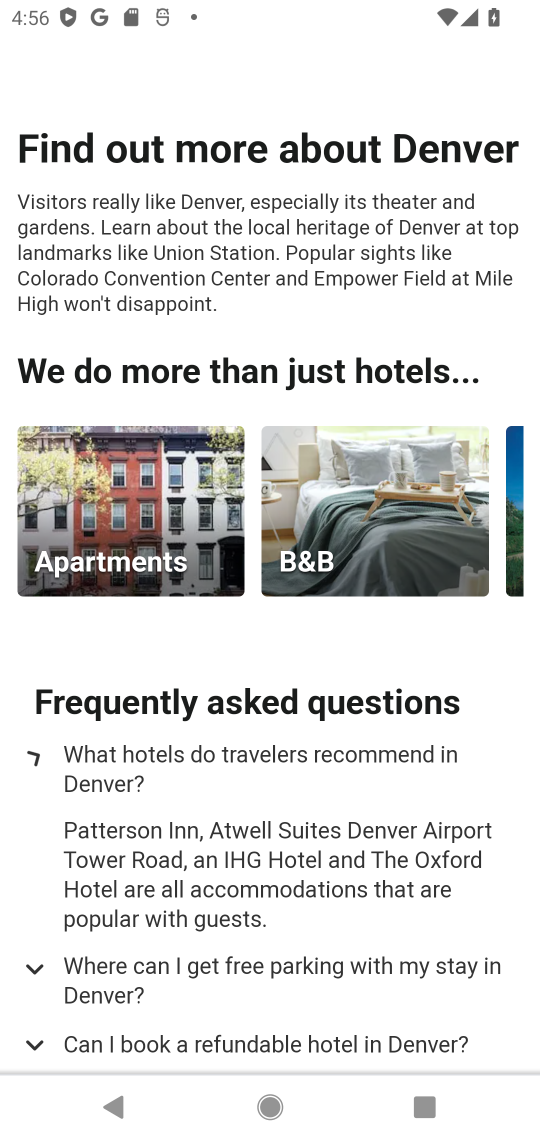
Step 53: click (31, 752)
Your task to perform on an android device: Search for hotels in Denver Image 54: 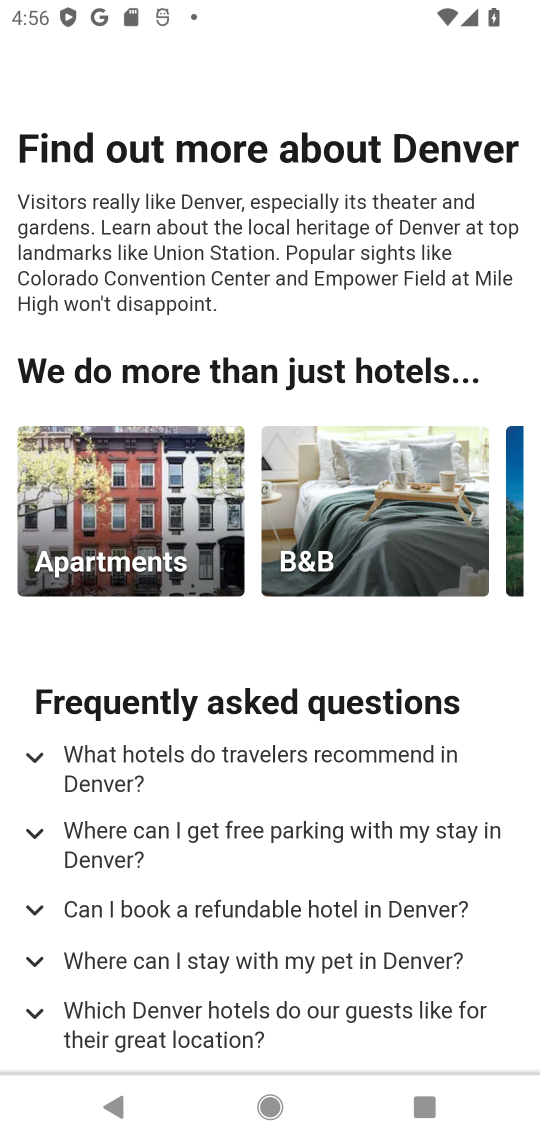
Step 54: click (31, 752)
Your task to perform on an android device: Search for hotels in Denver Image 55: 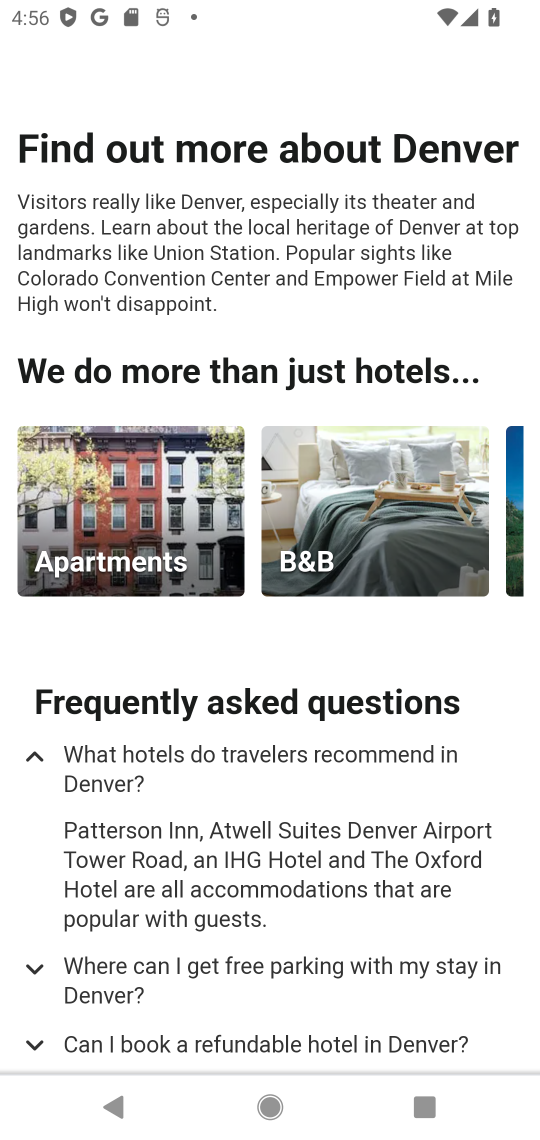
Step 55: click (31, 752)
Your task to perform on an android device: Search for hotels in Denver Image 56: 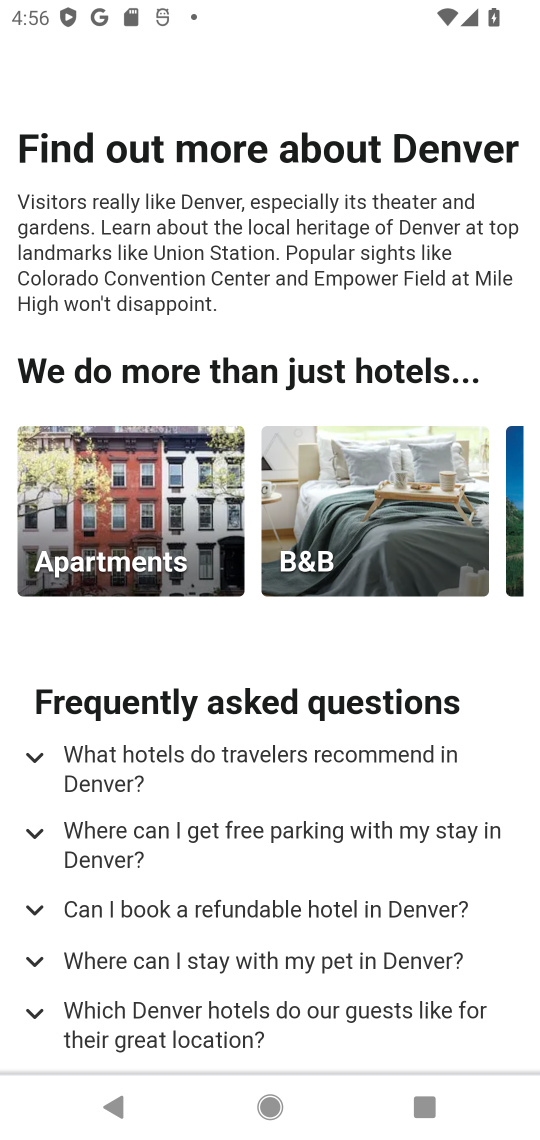
Step 56: click (31, 752)
Your task to perform on an android device: Search for hotels in Denver Image 57: 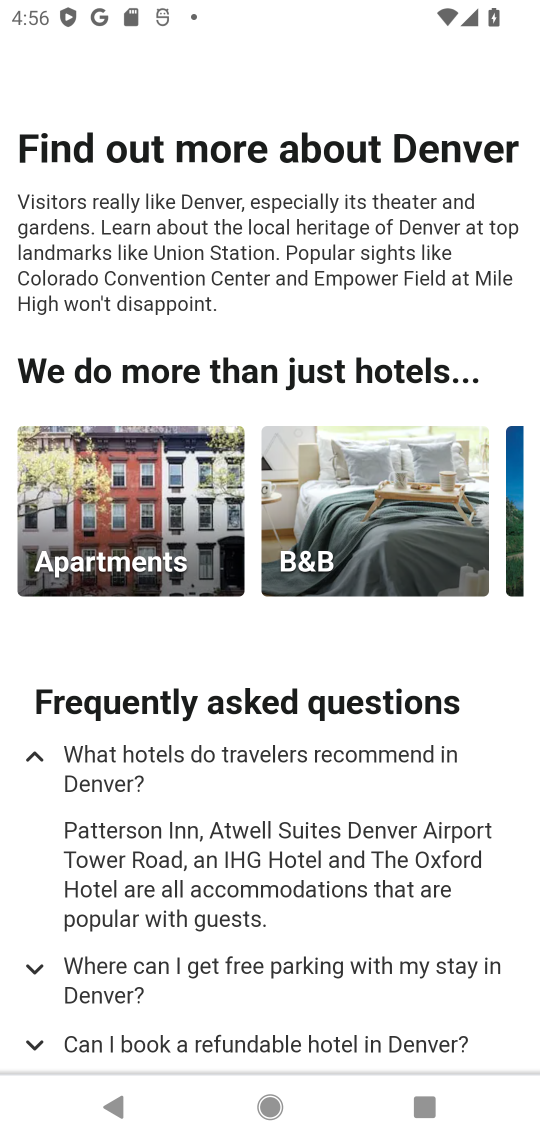
Step 57: click (26, 748)
Your task to perform on an android device: Search for hotels in Denver Image 58: 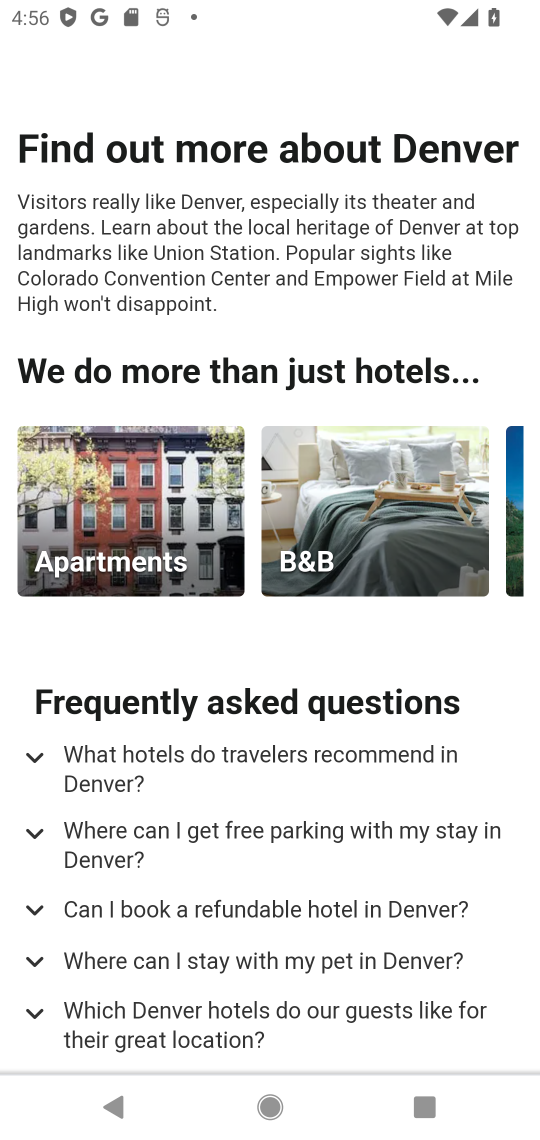
Step 58: click (26, 748)
Your task to perform on an android device: Search for hotels in Denver Image 59: 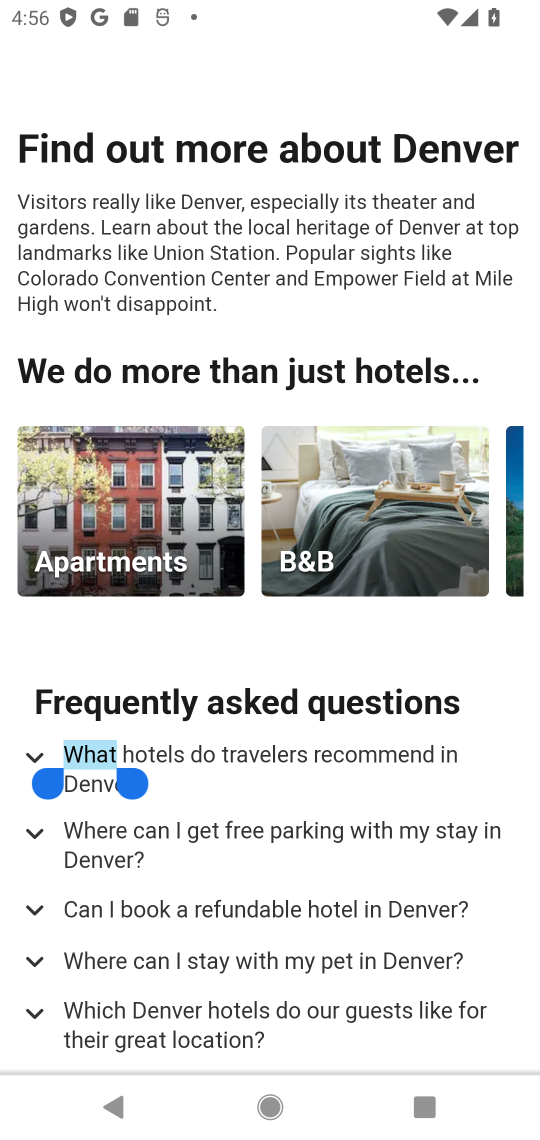
Step 59: click (28, 760)
Your task to perform on an android device: Search for hotels in Denver Image 60: 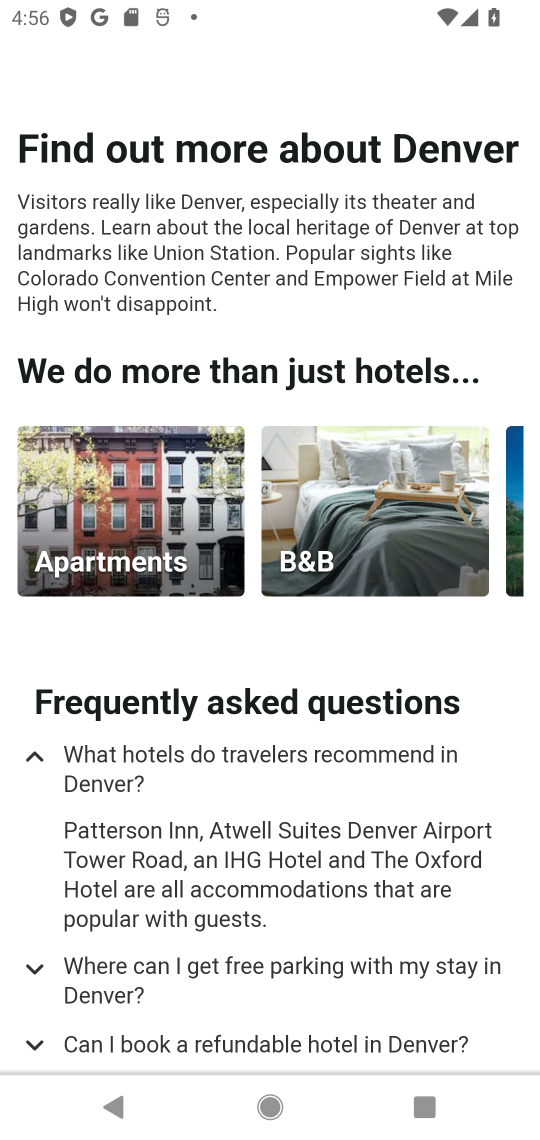
Step 60: click (28, 762)
Your task to perform on an android device: Search for hotels in Denver Image 61: 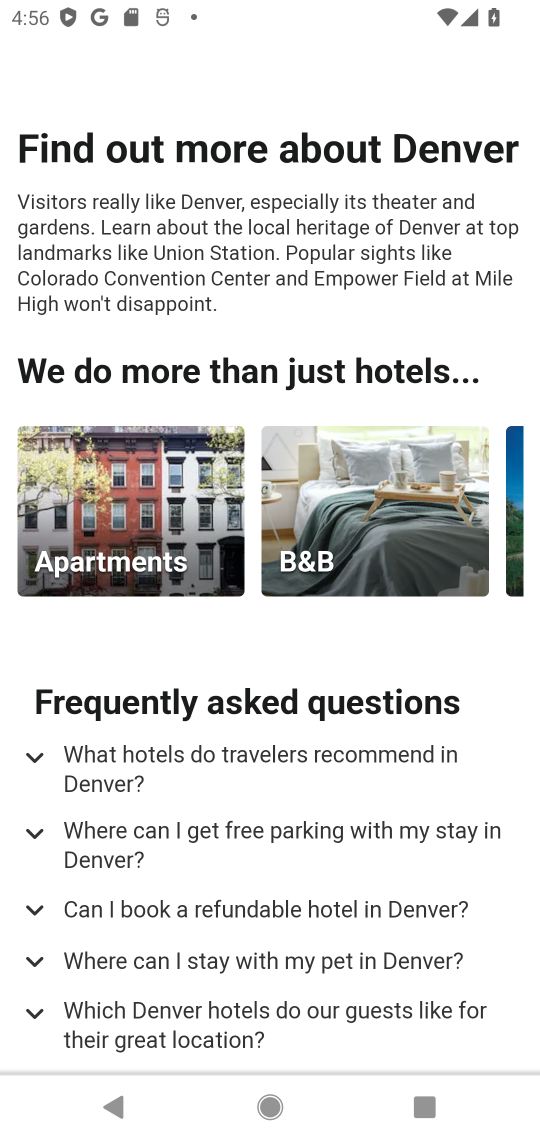
Step 61: task complete